Your task to perform on an android device: What's the weather like in Tokyo? Image 0: 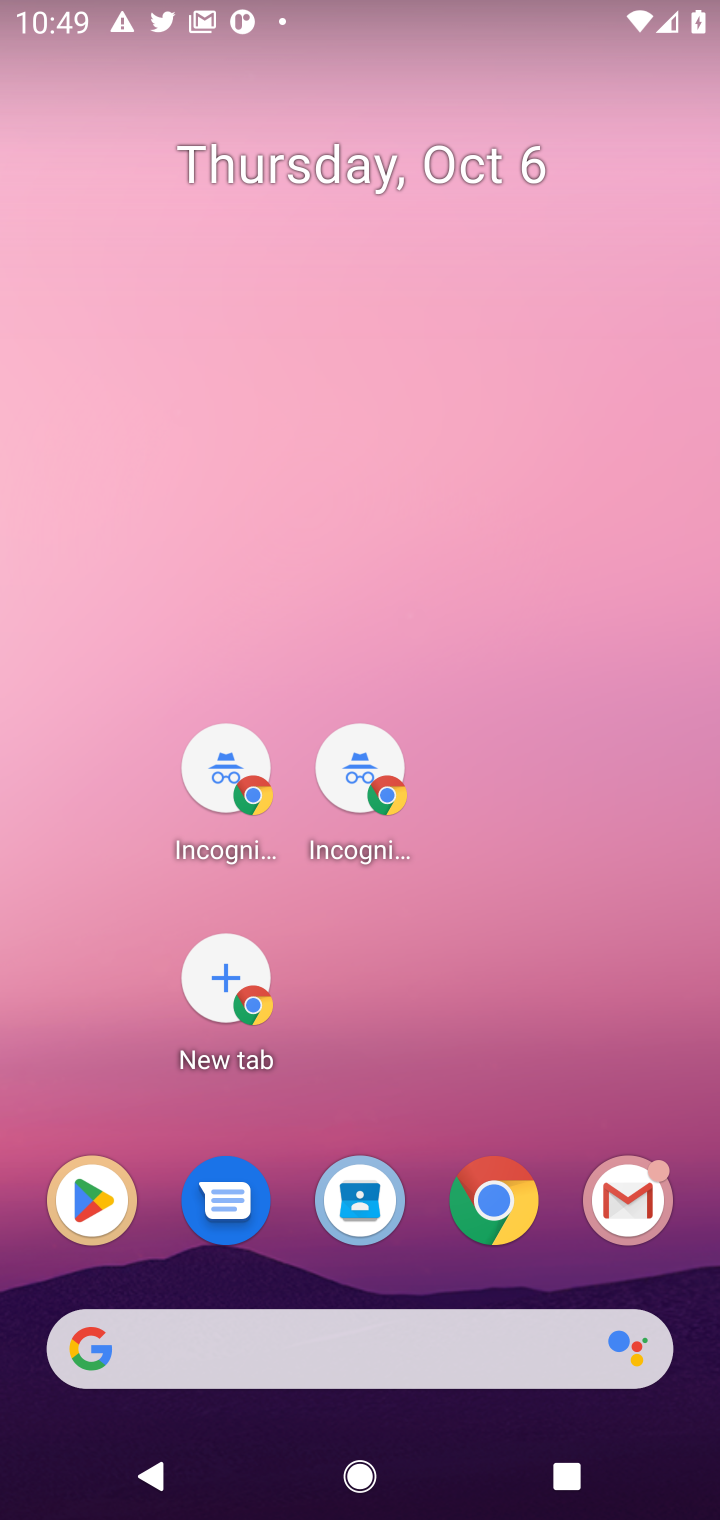
Step 0: press back button
Your task to perform on an android device: What's the weather like in Tokyo? Image 1: 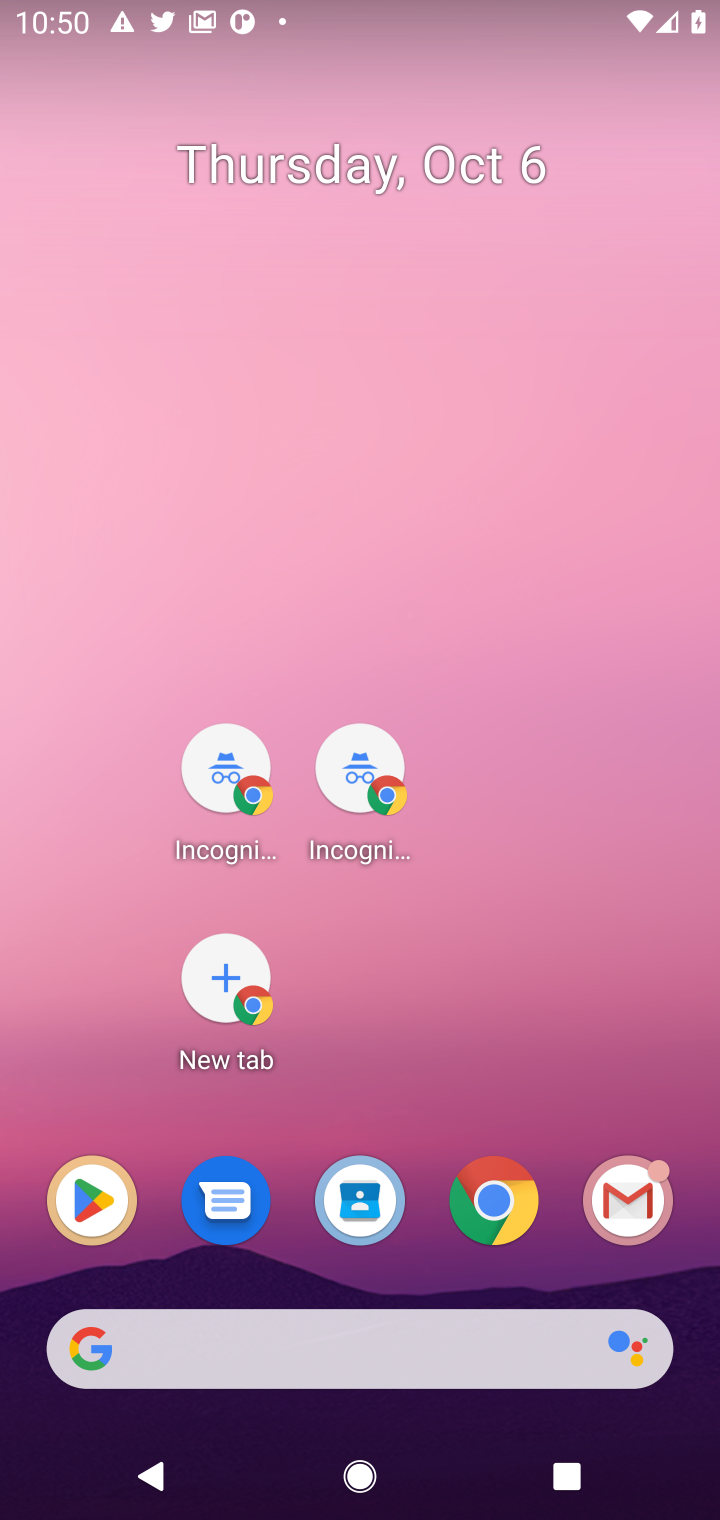
Step 1: click (497, 1175)
Your task to perform on an android device: What's the weather like in Tokyo? Image 2: 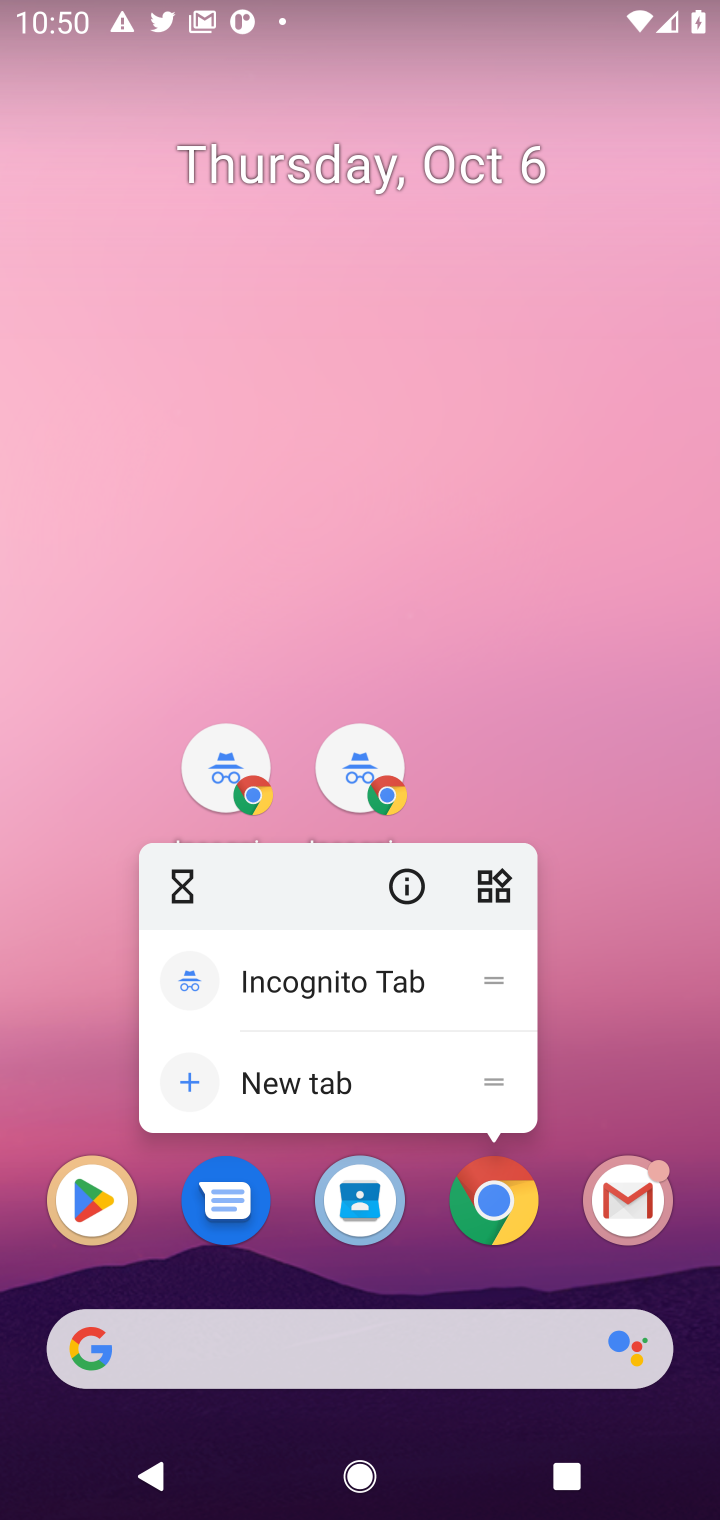
Step 2: press back button
Your task to perform on an android device: What's the weather like in Tokyo? Image 3: 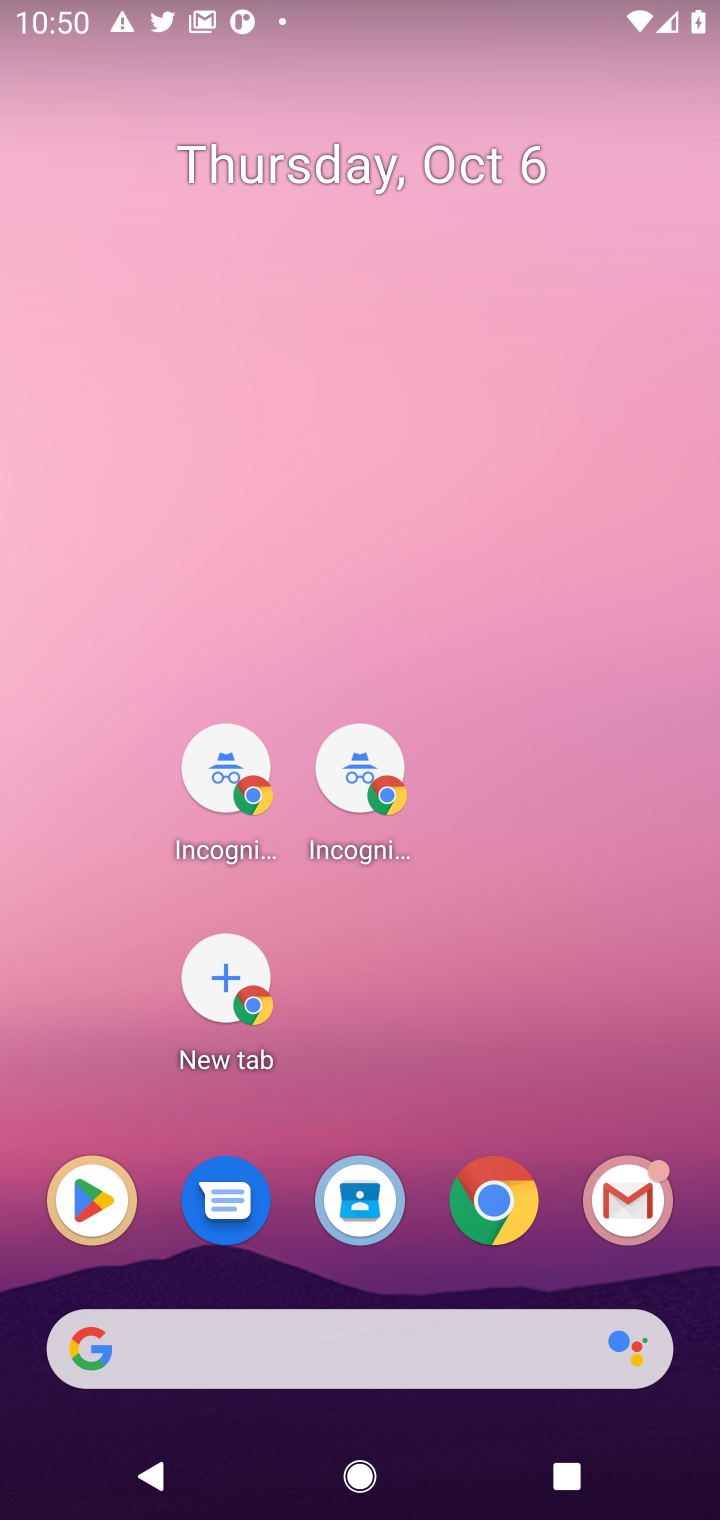
Step 3: press back button
Your task to perform on an android device: What's the weather like in Tokyo? Image 4: 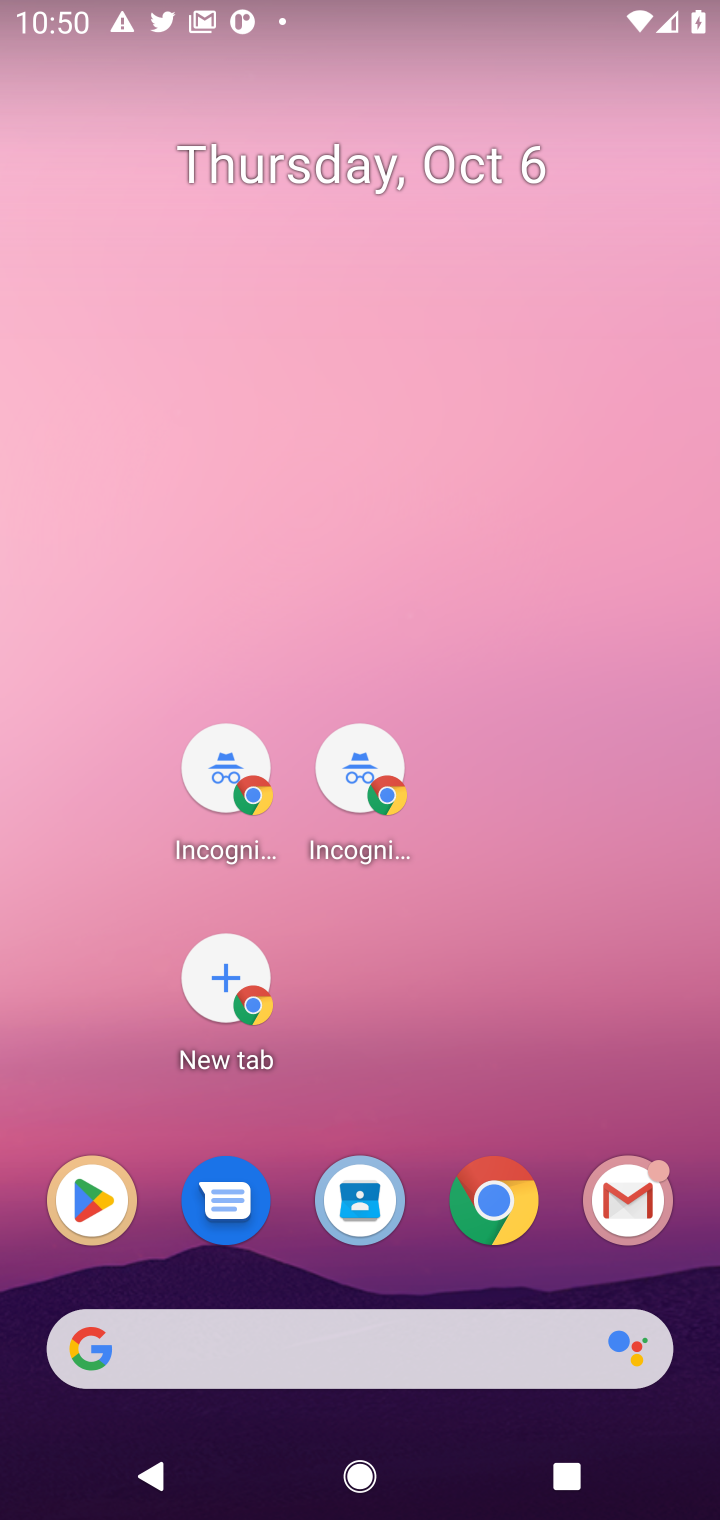
Step 4: press home button
Your task to perform on an android device: What's the weather like in Tokyo? Image 5: 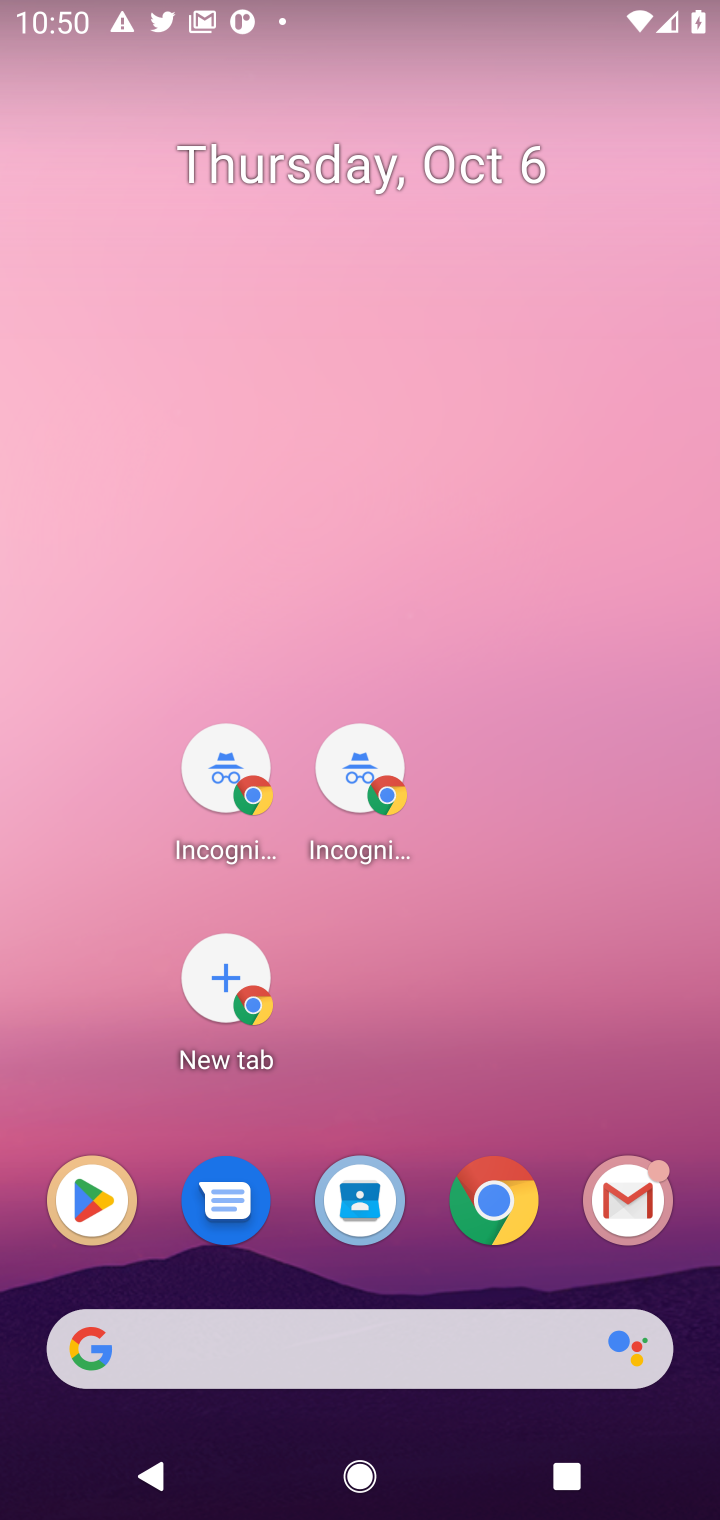
Step 5: press back button
Your task to perform on an android device: What's the weather like in Tokyo? Image 6: 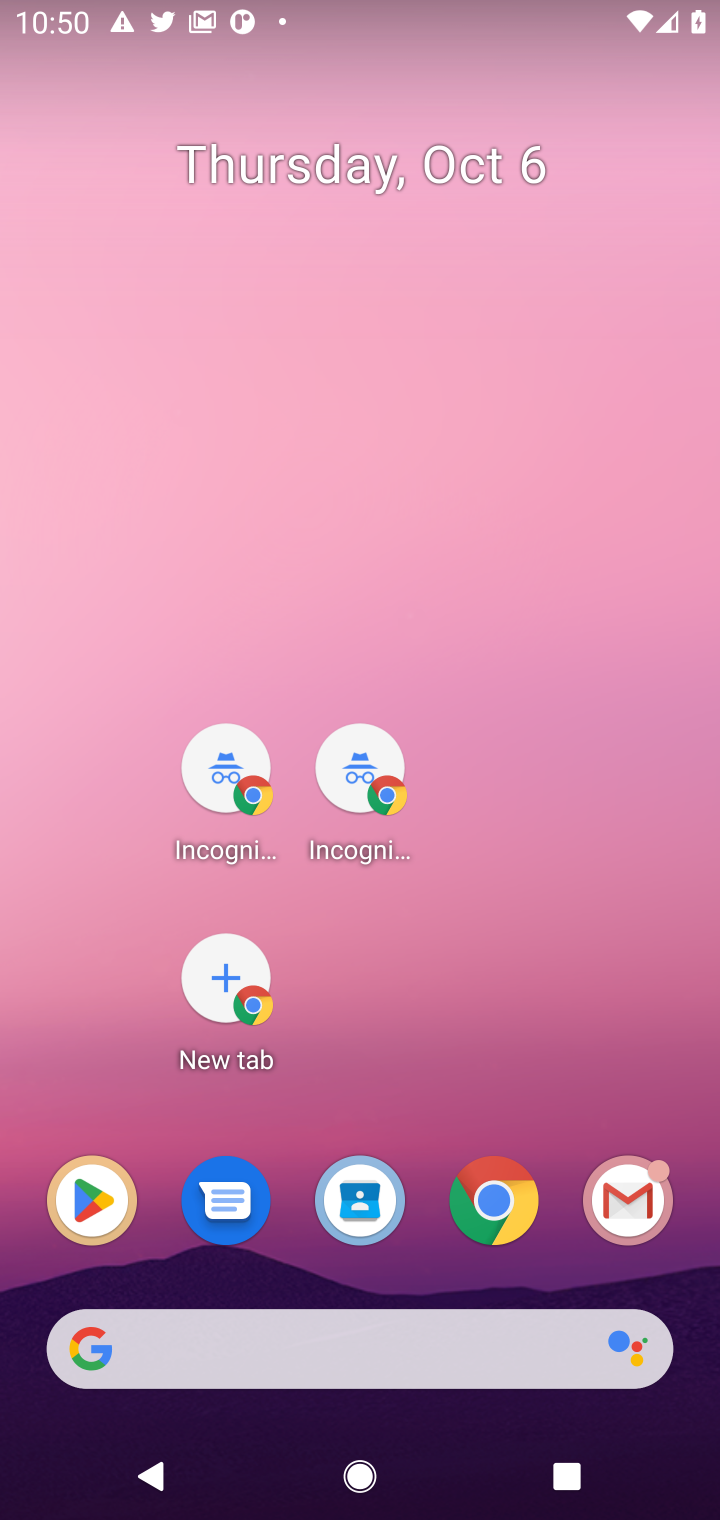
Step 6: press back button
Your task to perform on an android device: What's the weather like in Tokyo? Image 7: 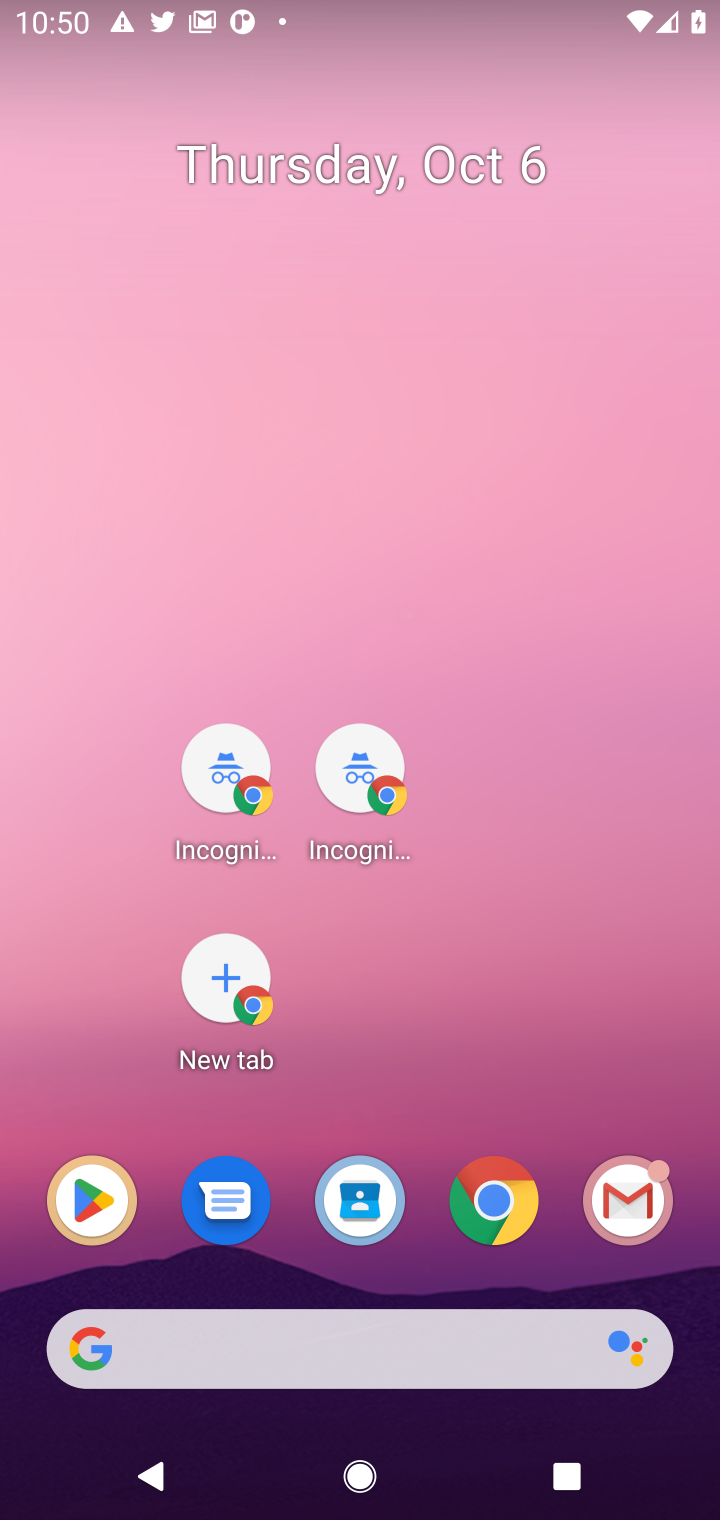
Step 7: press back button
Your task to perform on an android device: What's the weather like in Tokyo? Image 8: 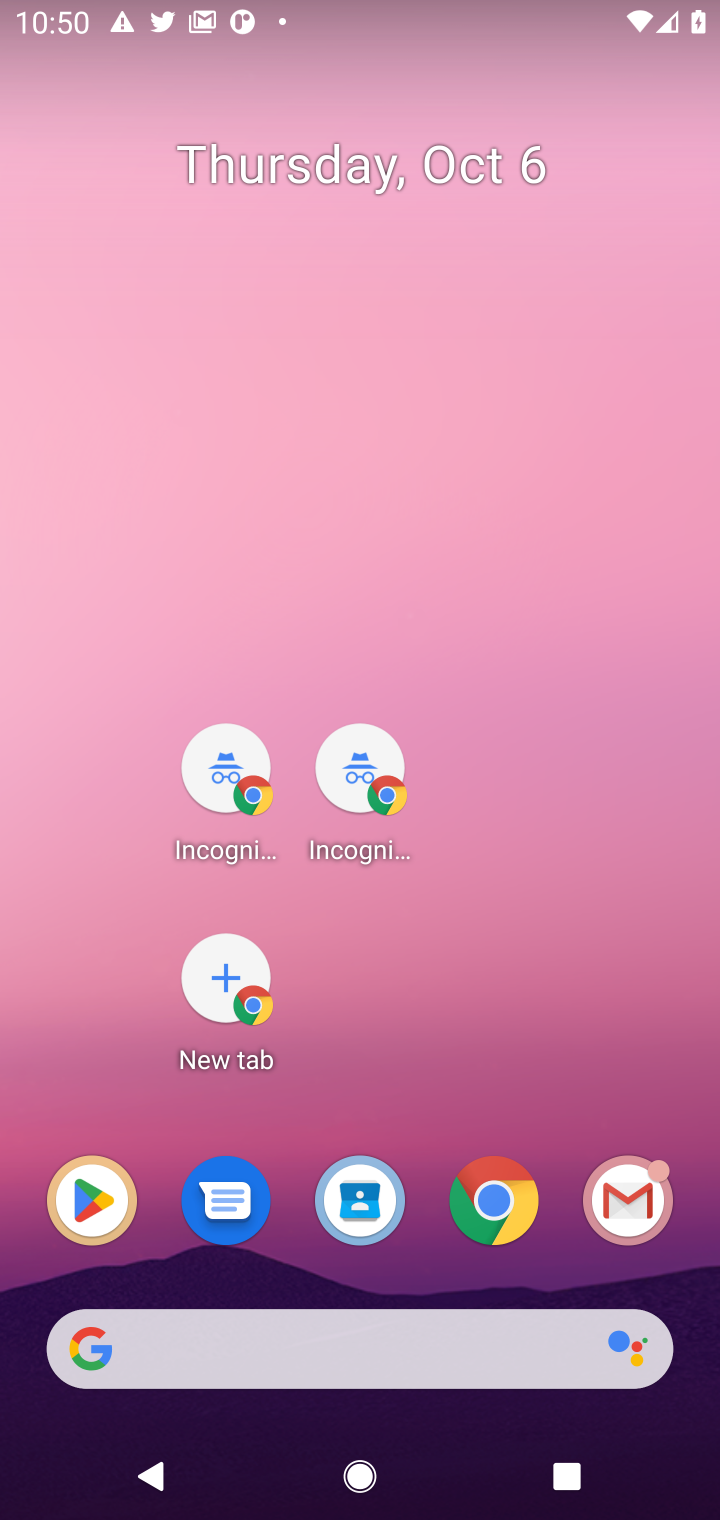
Step 8: click (515, 1190)
Your task to perform on an android device: What's the weather like in Tokyo? Image 9: 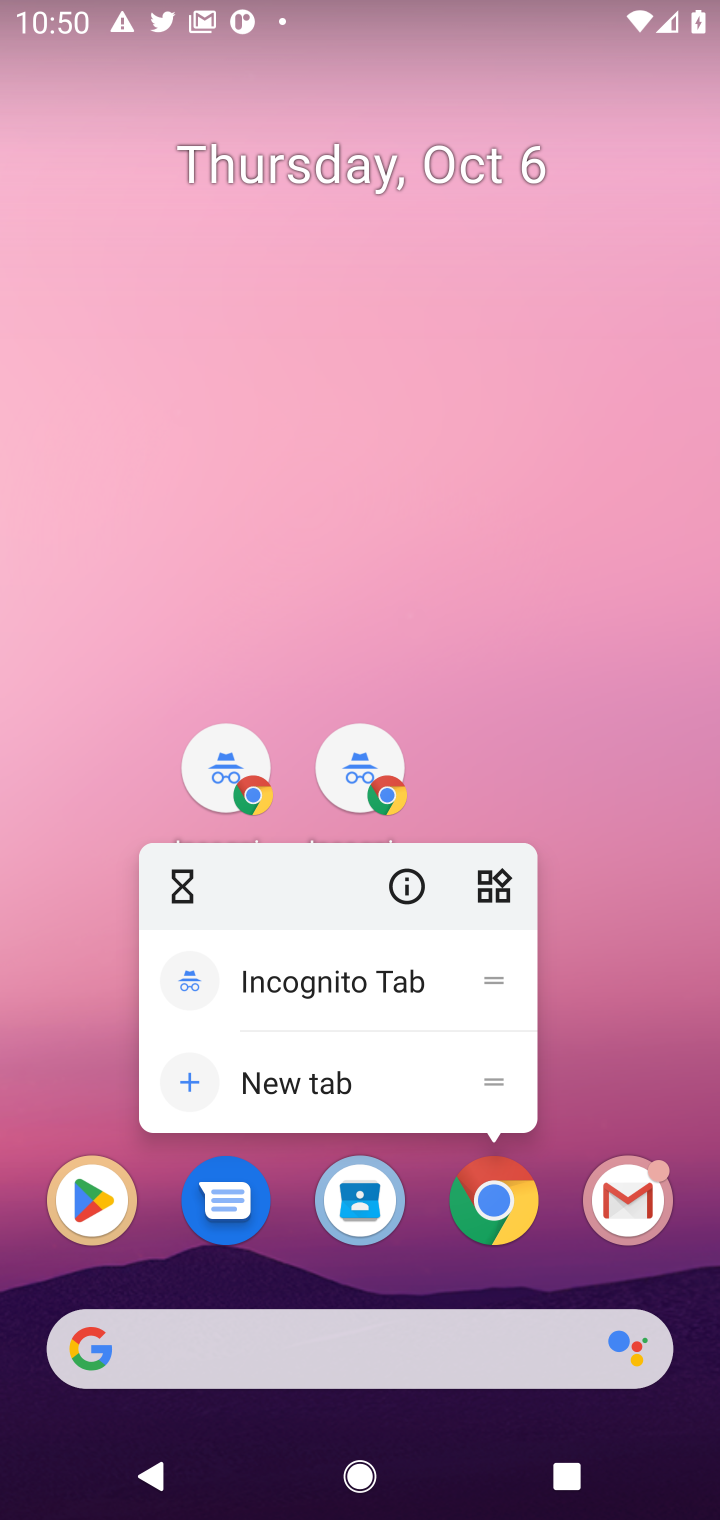
Step 9: click (510, 1222)
Your task to perform on an android device: What's the weather like in Tokyo? Image 10: 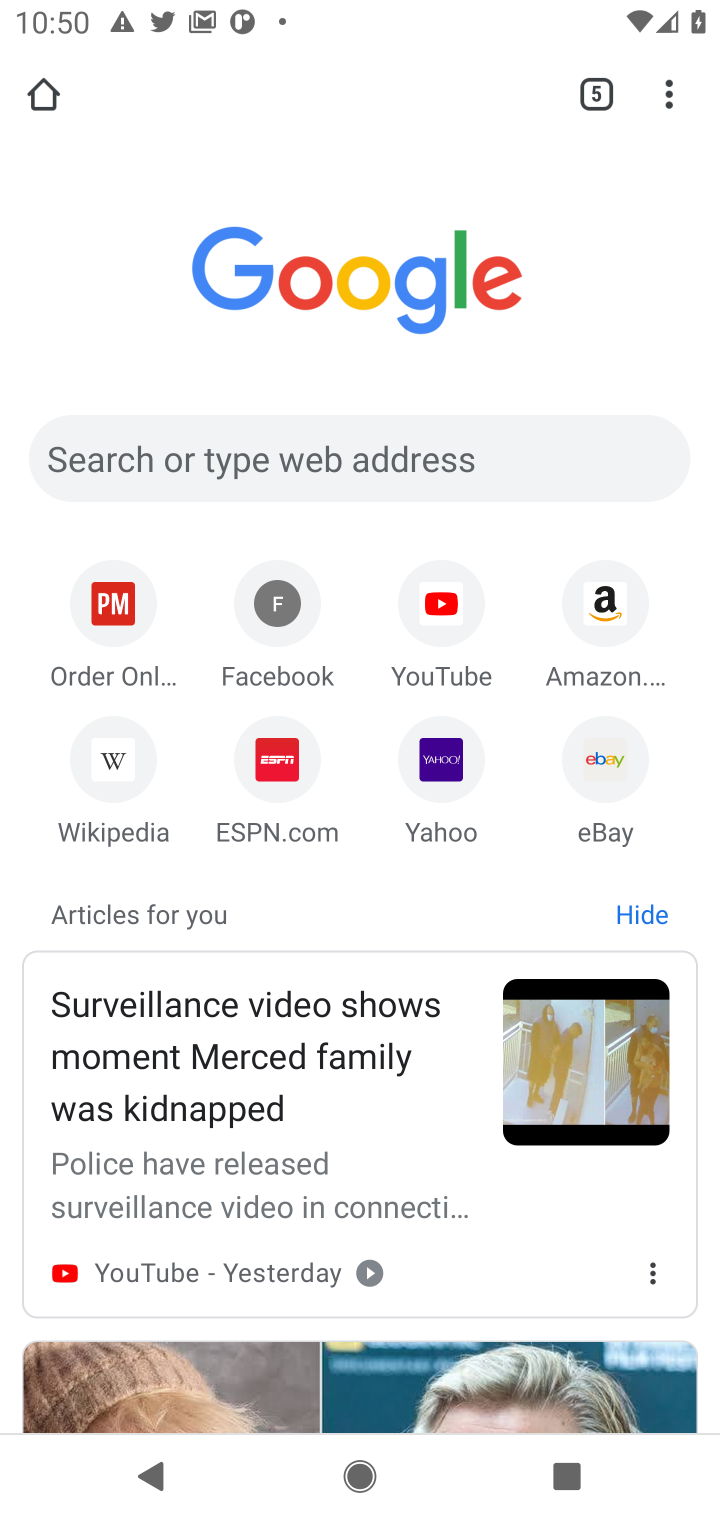
Step 10: click (197, 446)
Your task to perform on an android device: What's the weather like in Tokyo? Image 11: 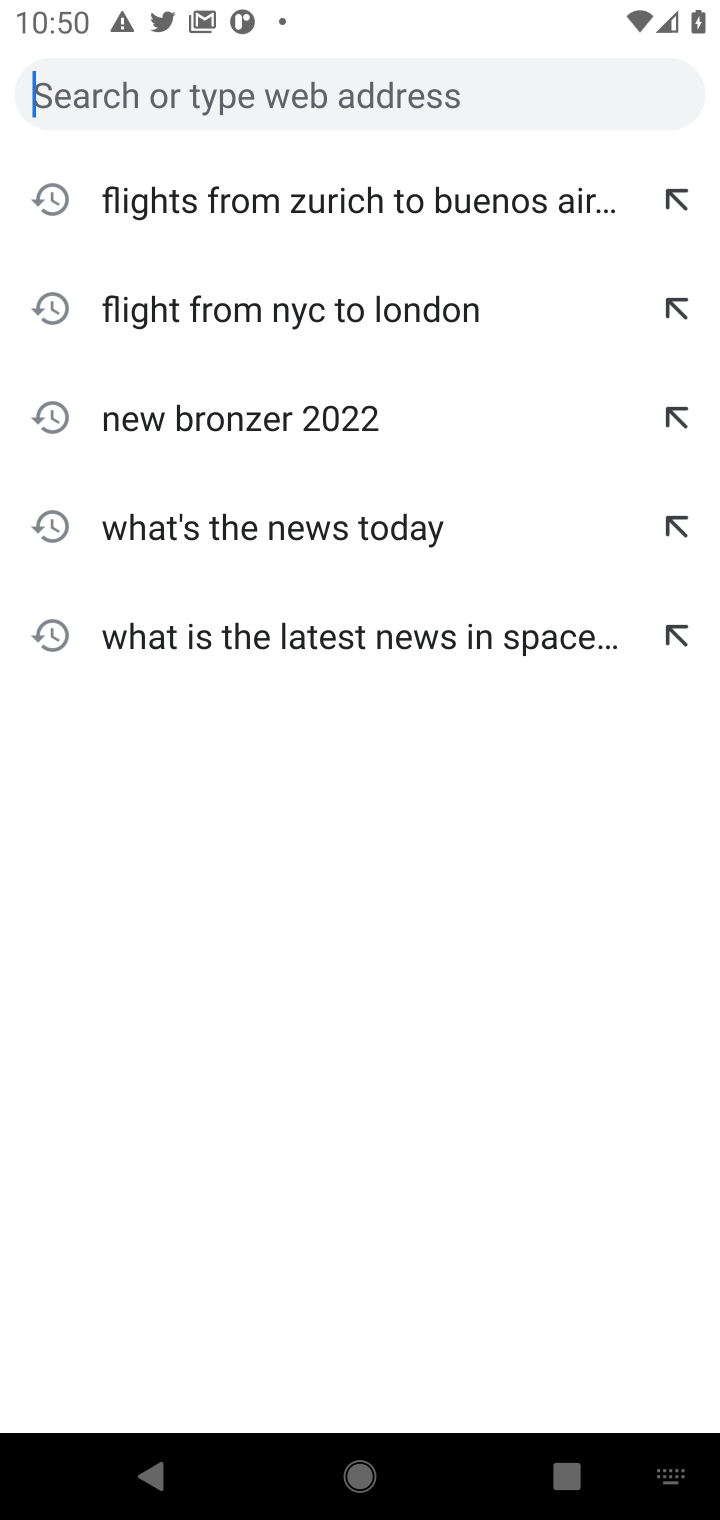
Step 11: type "whats the weather like in tokyo"
Your task to perform on an android device: What's the weather like in Tokyo? Image 12: 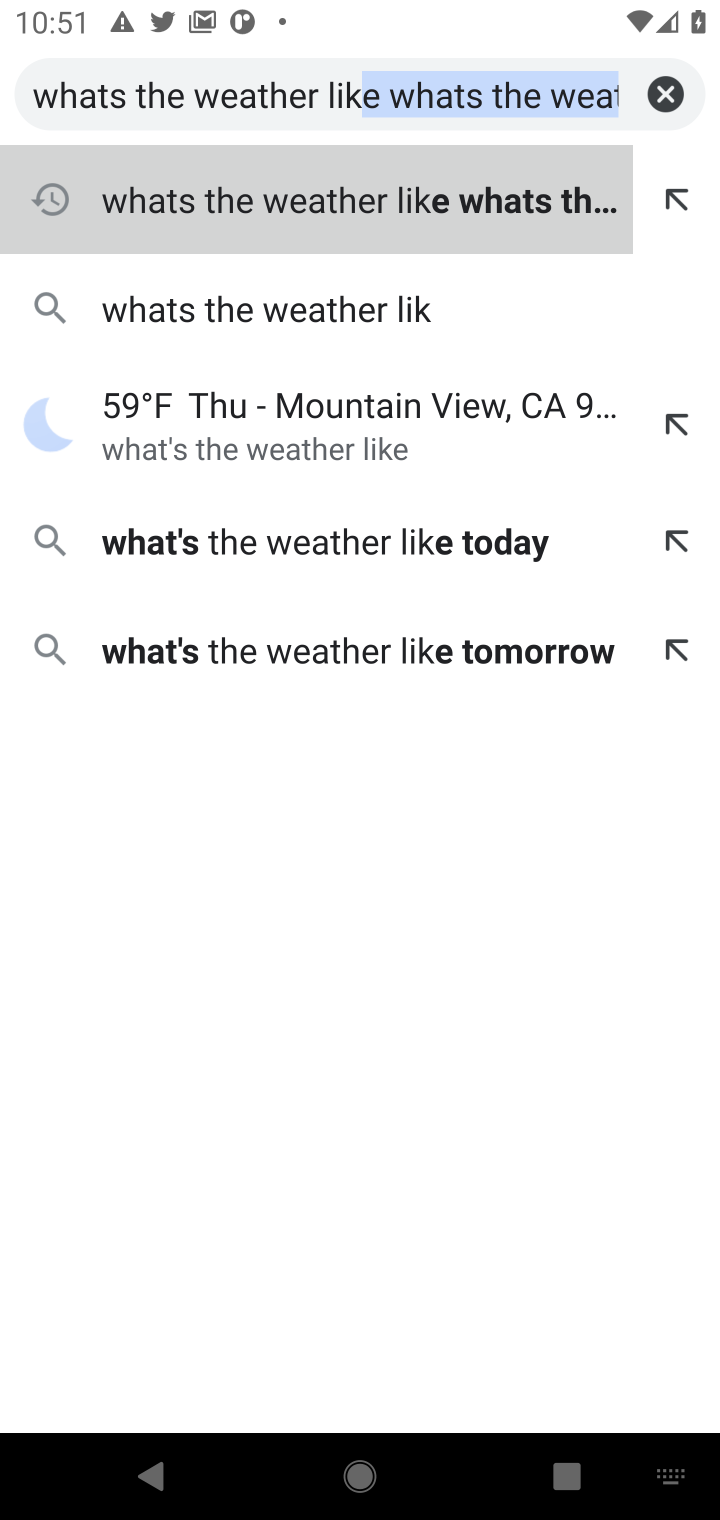
Step 12: click (661, 84)
Your task to perform on an android device: What's the weather like in Tokyo? Image 13: 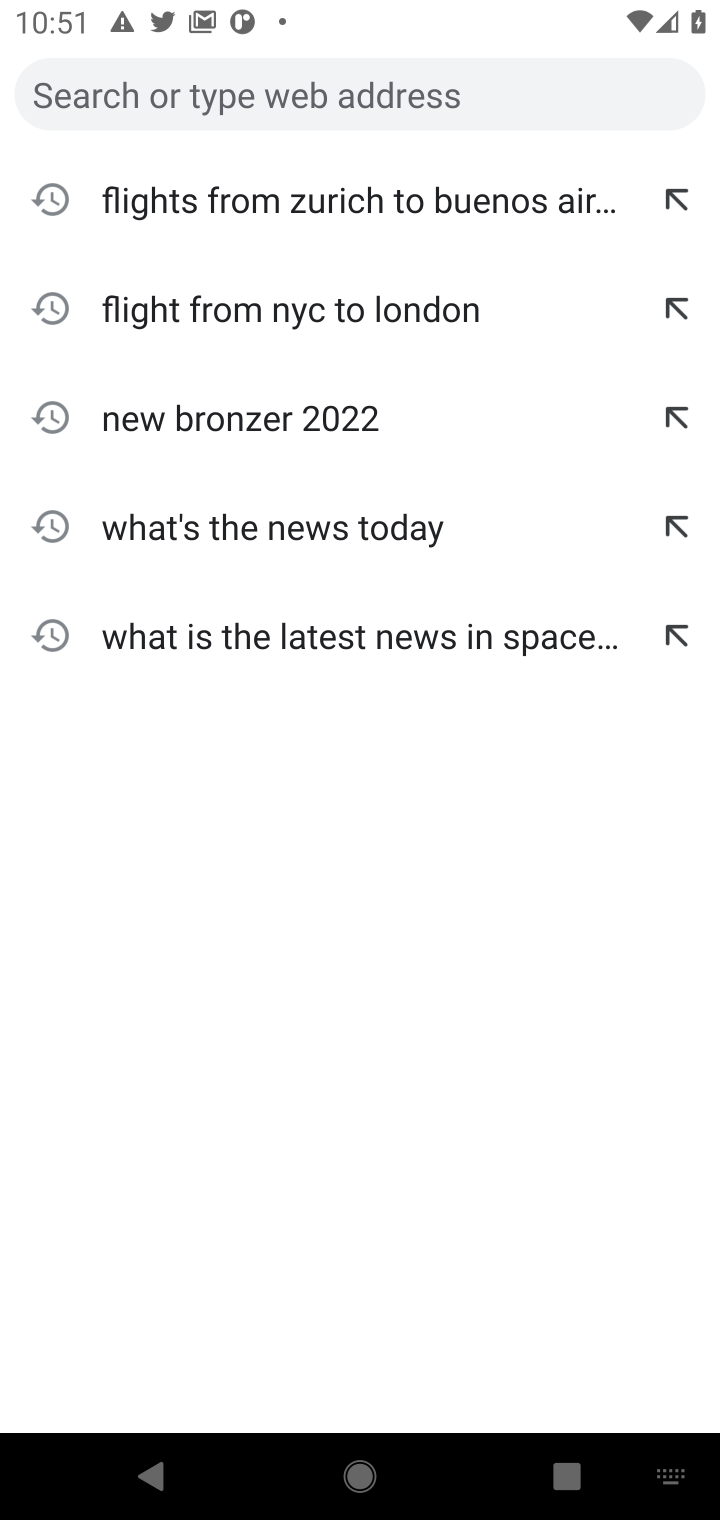
Step 13: type "whats the weather like in tokyo"
Your task to perform on an android device: What's the weather like in Tokyo? Image 14: 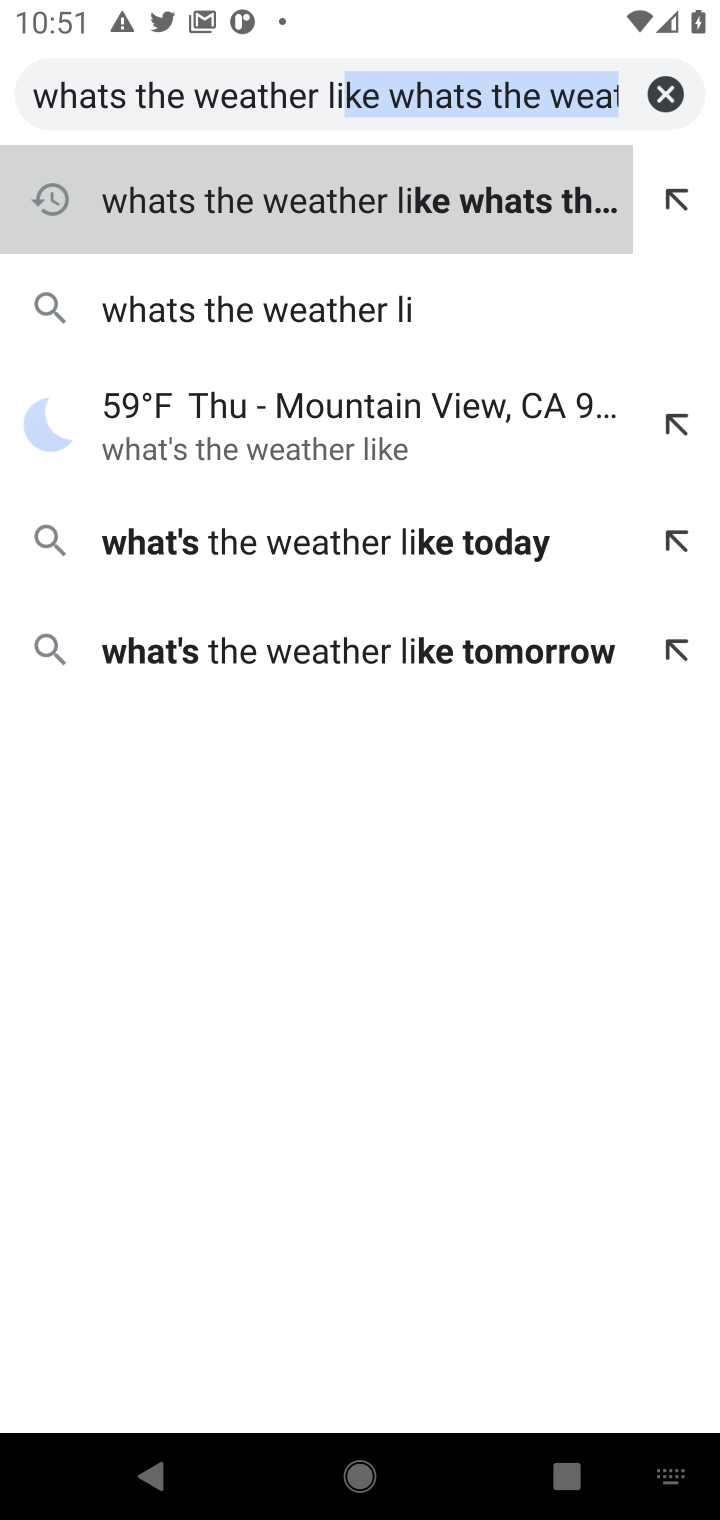
Step 14: click (661, 88)
Your task to perform on an android device: What's the weather like in Tokyo? Image 15: 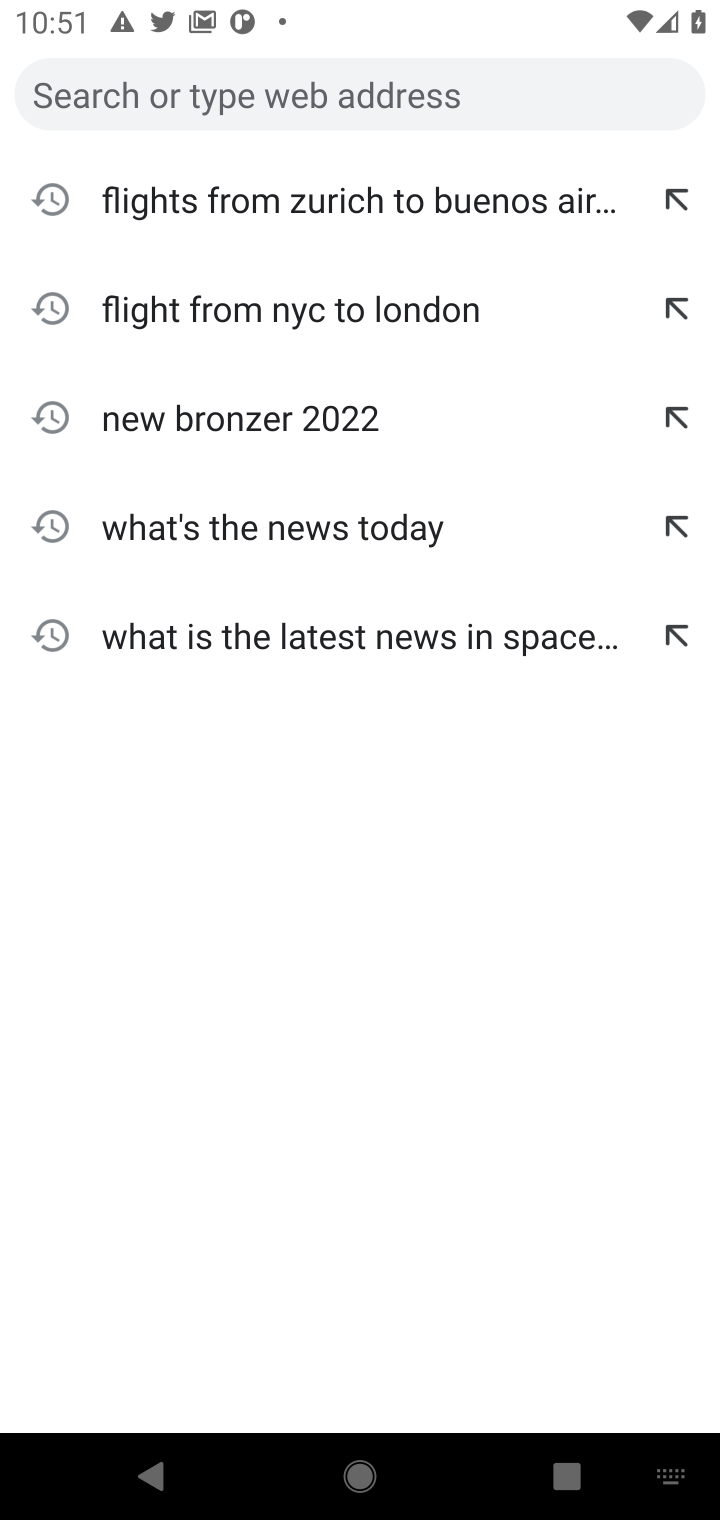
Step 15: type "whats the weather like in tokyo"
Your task to perform on an android device: What's the weather like in Tokyo? Image 16: 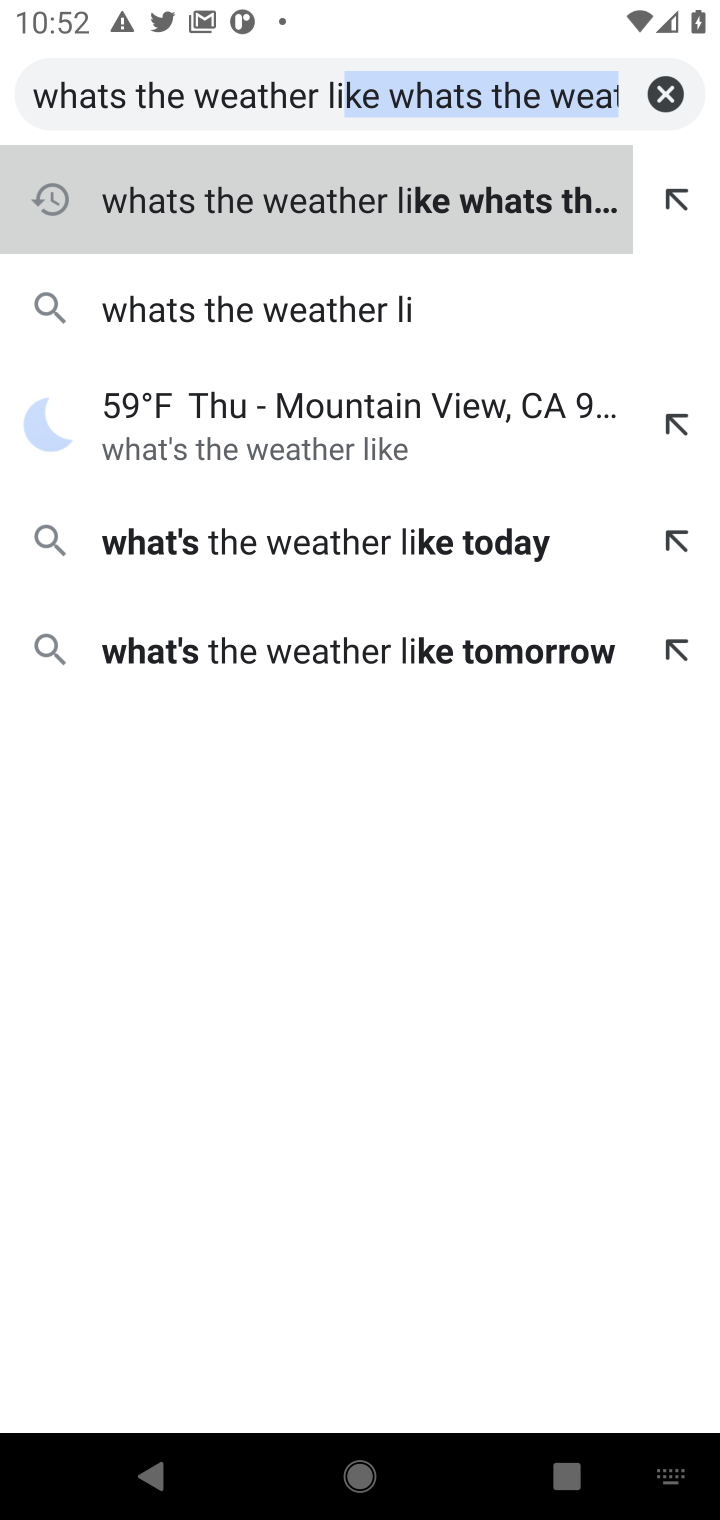
Step 16: click (342, 185)
Your task to perform on an android device: What's the weather like in Tokyo? Image 17: 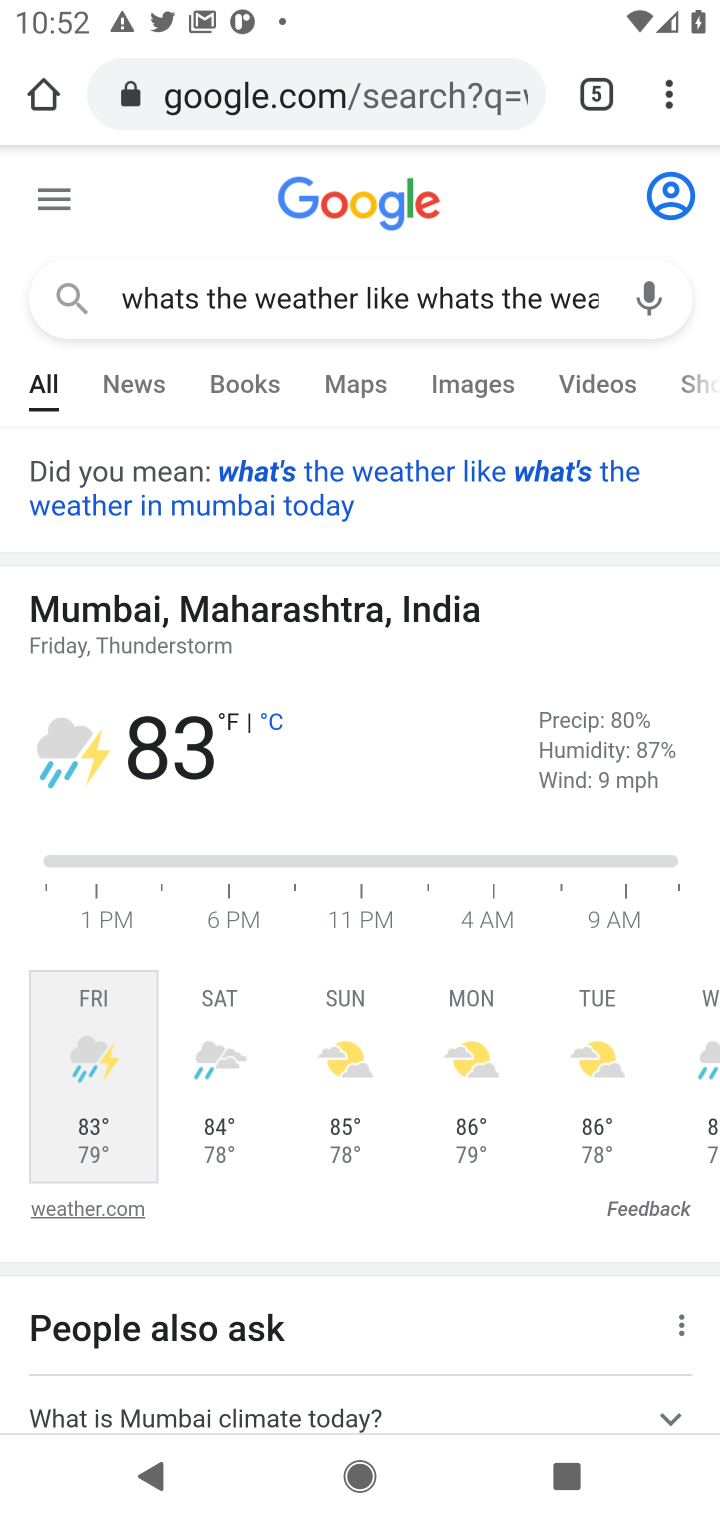
Step 17: drag from (470, 1170) to (517, 653)
Your task to perform on an android device: What's the weather like in Tokyo? Image 18: 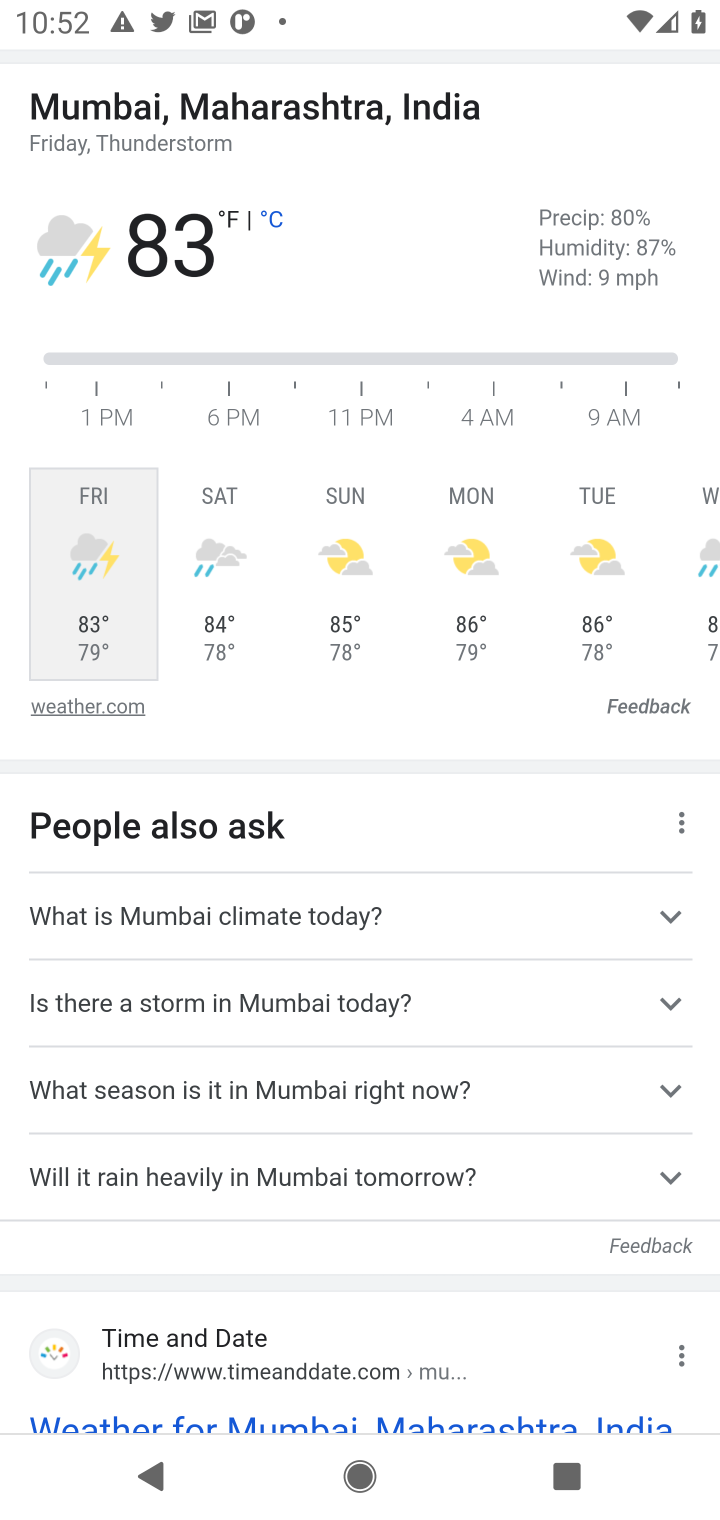
Step 18: drag from (271, 487) to (290, 1229)
Your task to perform on an android device: What's the weather like in Tokyo? Image 19: 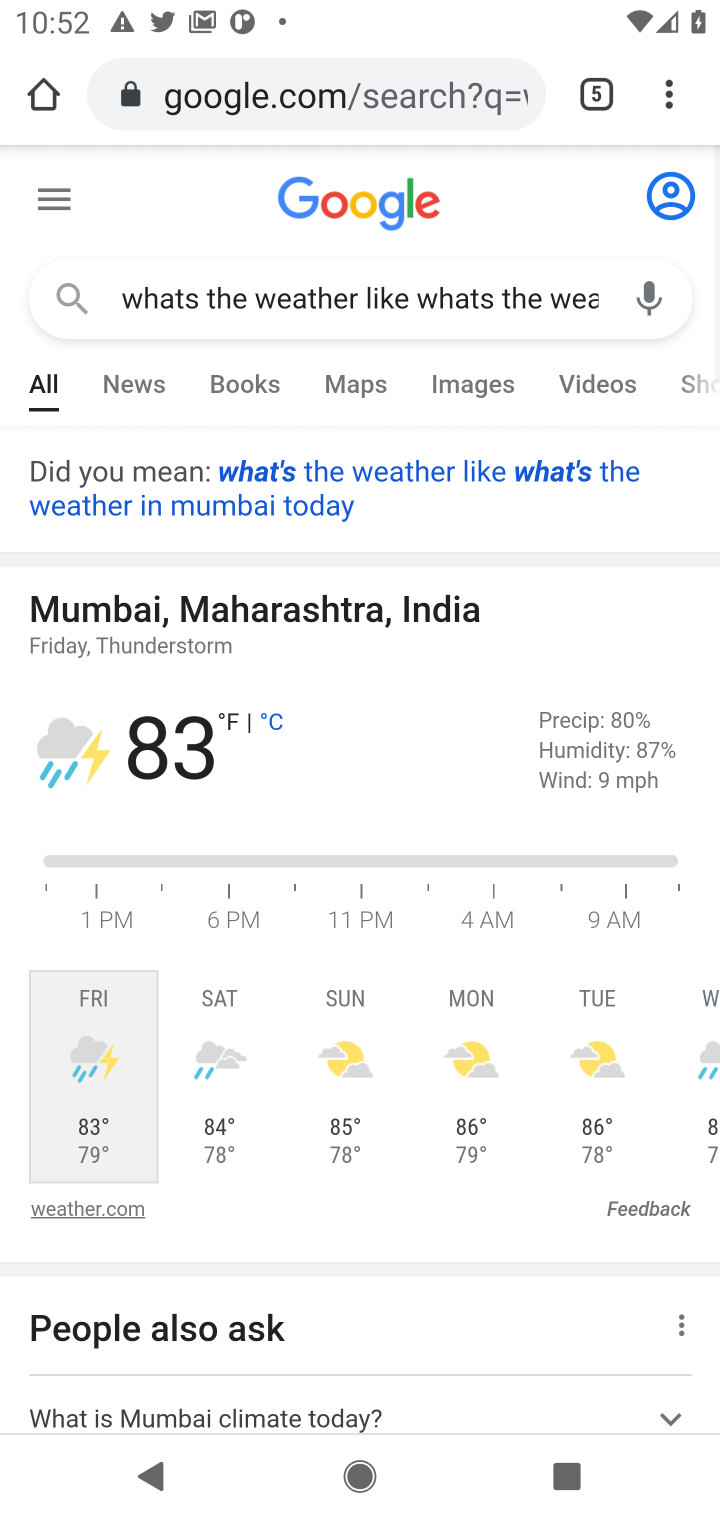
Step 19: drag from (277, 965) to (260, 1256)
Your task to perform on an android device: What's the weather like in Tokyo? Image 20: 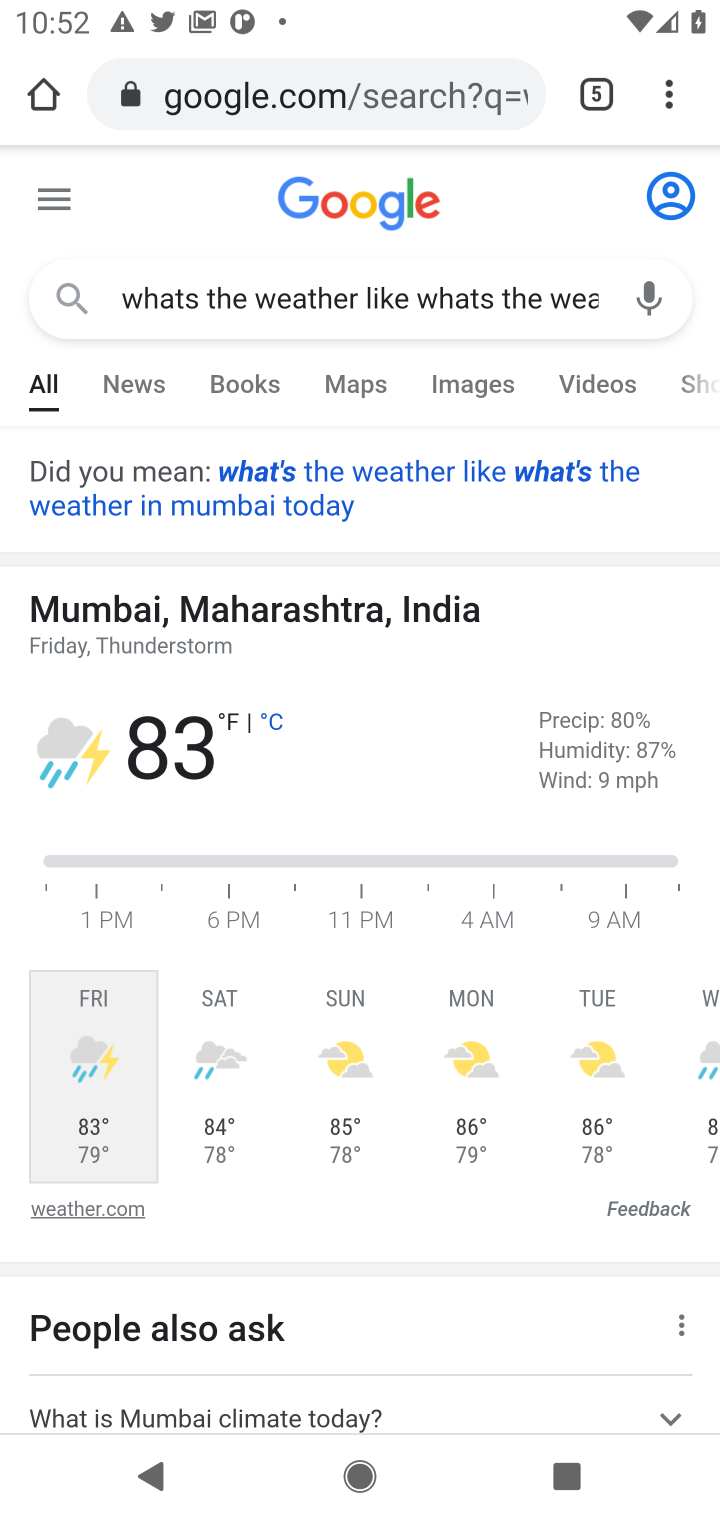
Step 20: click (363, 387)
Your task to perform on an android device: What's the weather like in Tokyo? Image 21: 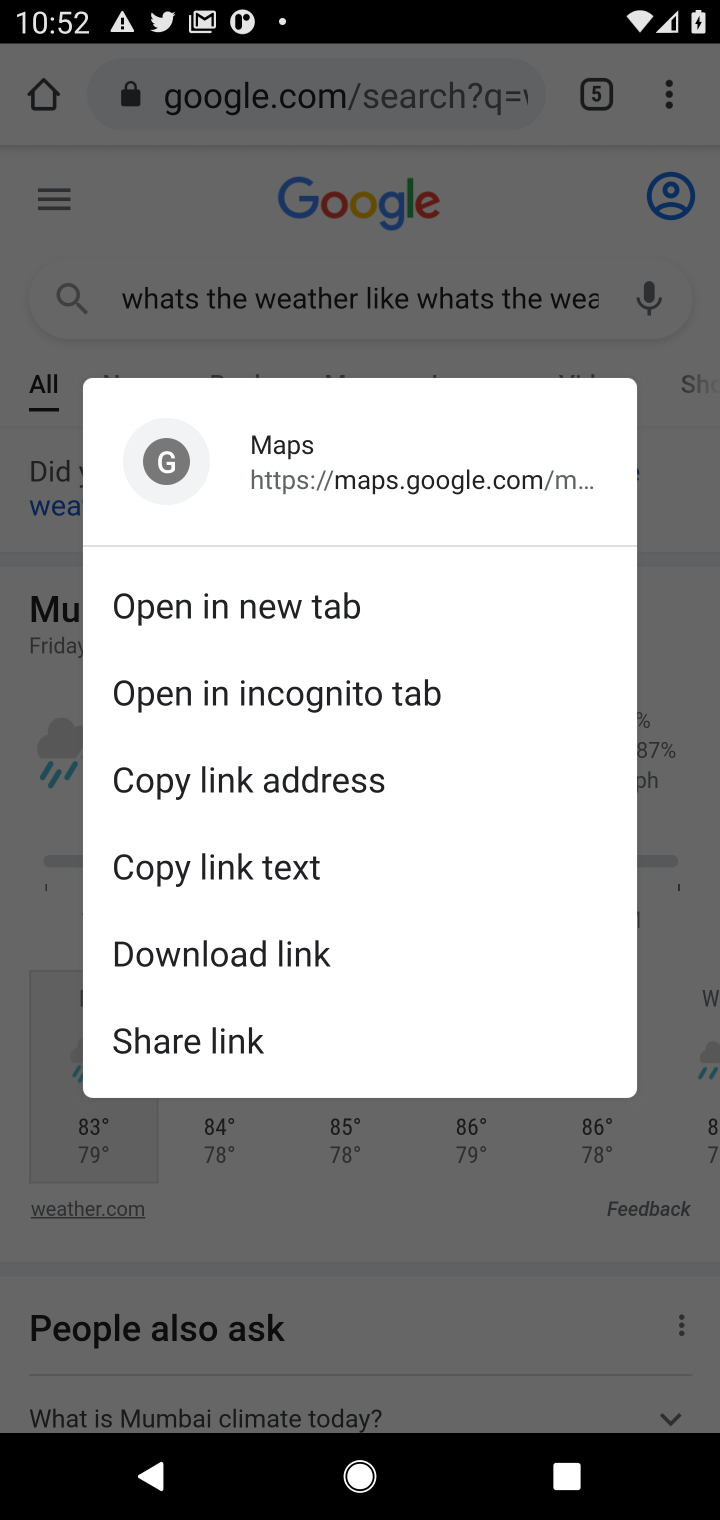
Step 21: click (299, 599)
Your task to perform on an android device: What's the weather like in Tokyo? Image 22: 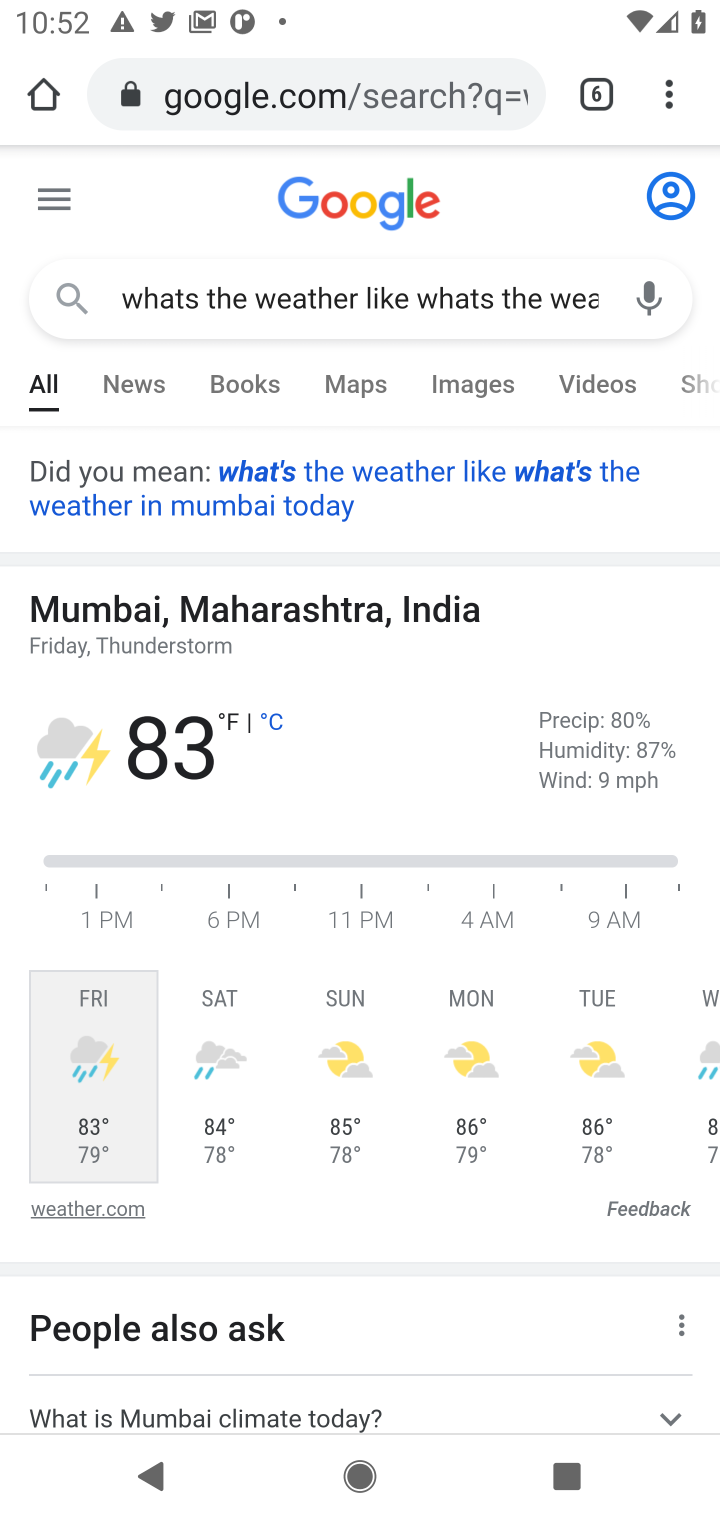
Step 22: drag from (439, 1398) to (508, 824)
Your task to perform on an android device: What's the weather like in Tokyo? Image 23: 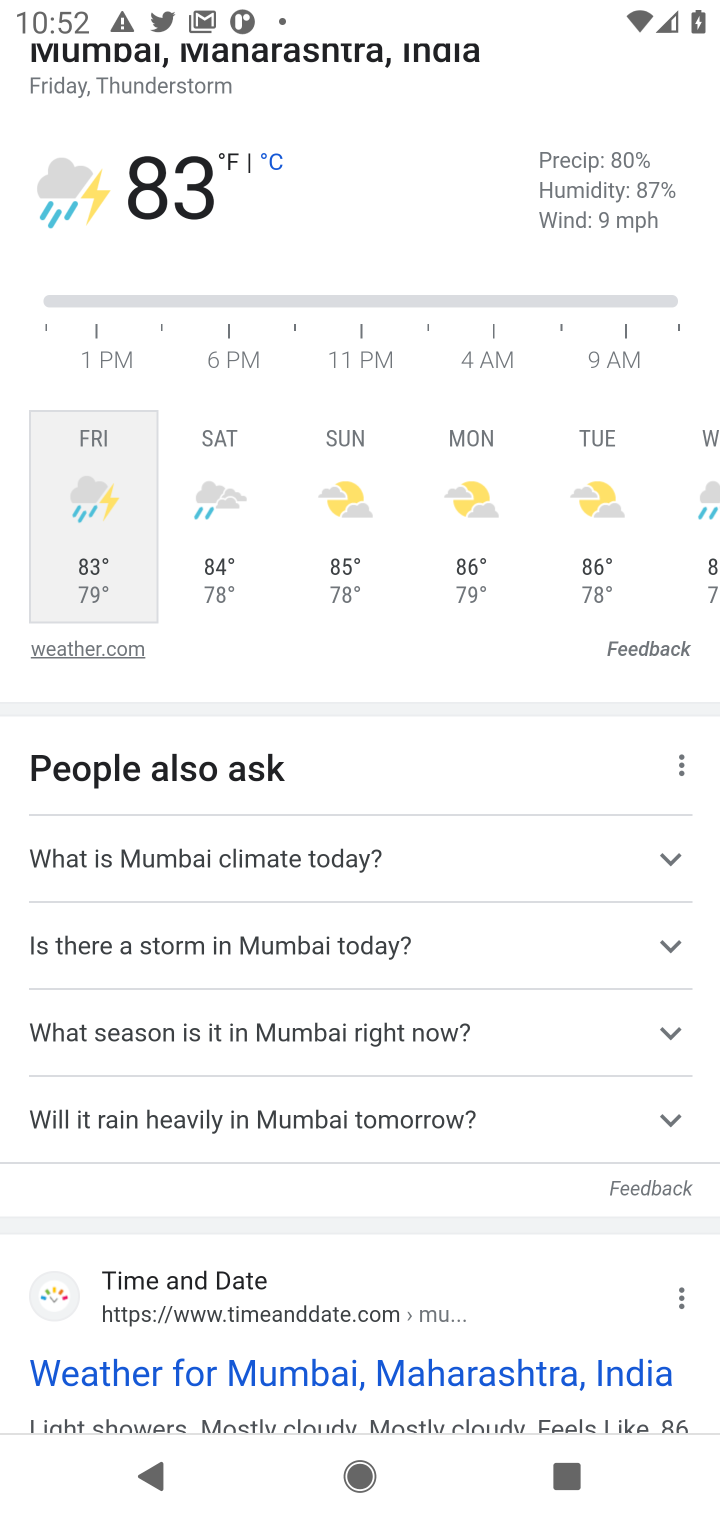
Step 23: click (653, 839)
Your task to perform on an android device: What's the weather like in Tokyo? Image 24: 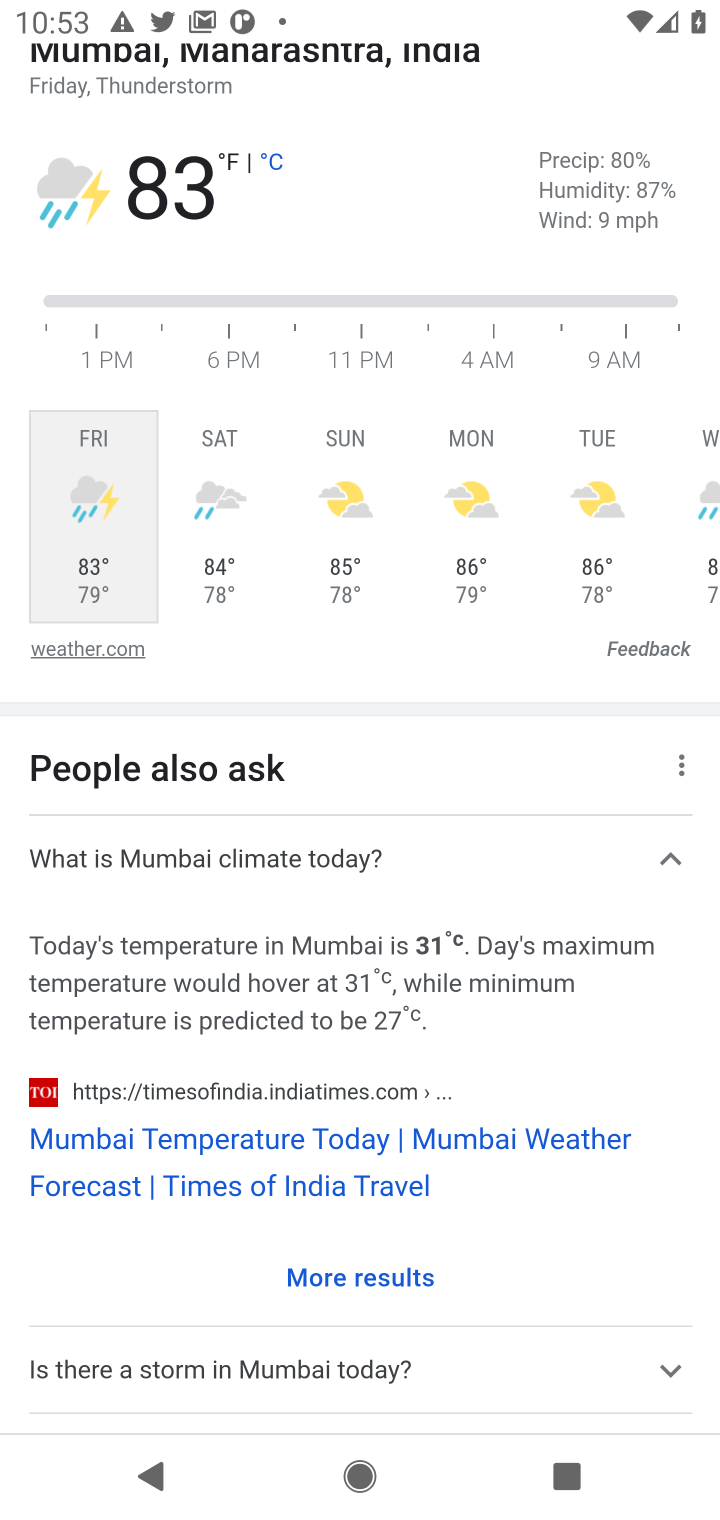
Step 24: drag from (211, 575) to (299, 260)
Your task to perform on an android device: What's the weather like in Tokyo? Image 25: 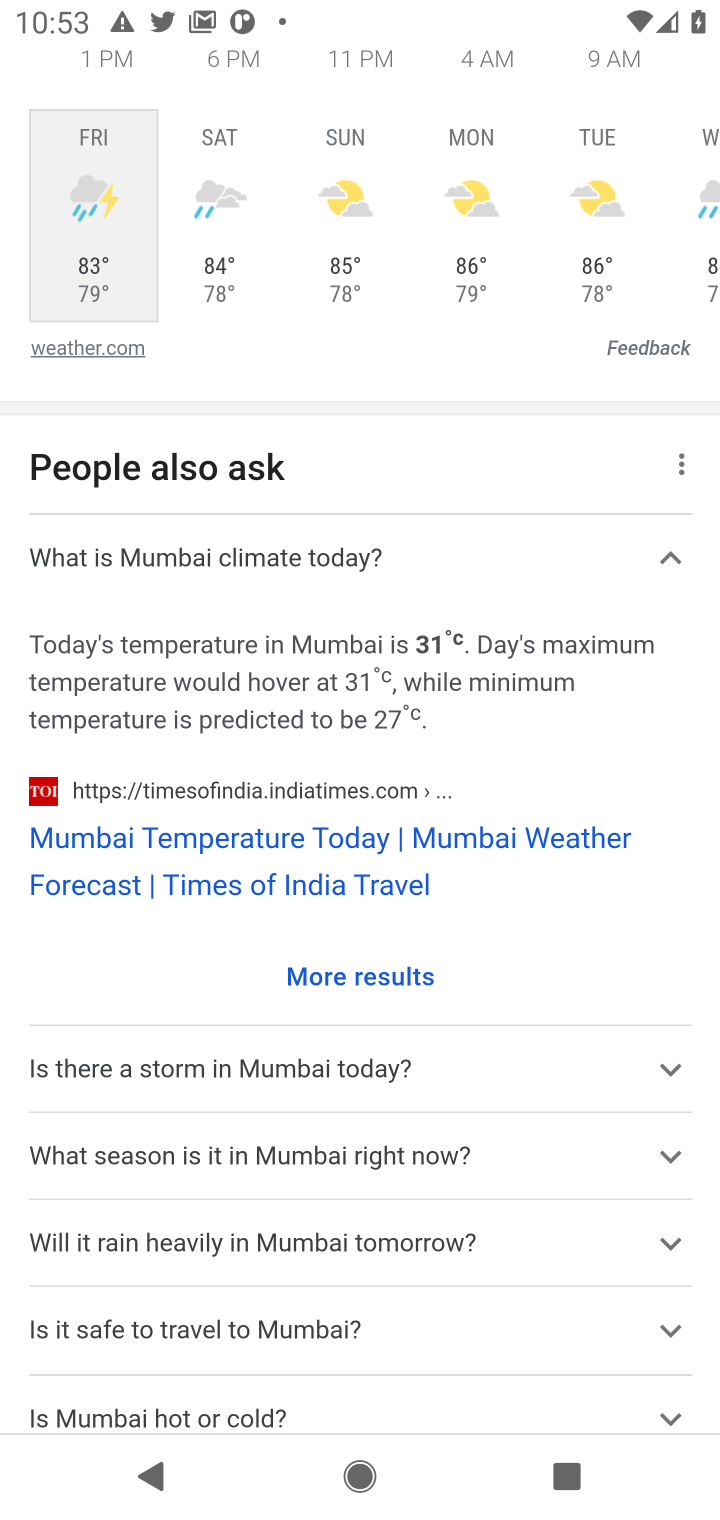
Step 25: drag from (387, 971) to (405, 455)
Your task to perform on an android device: What's the weather like in Tokyo? Image 26: 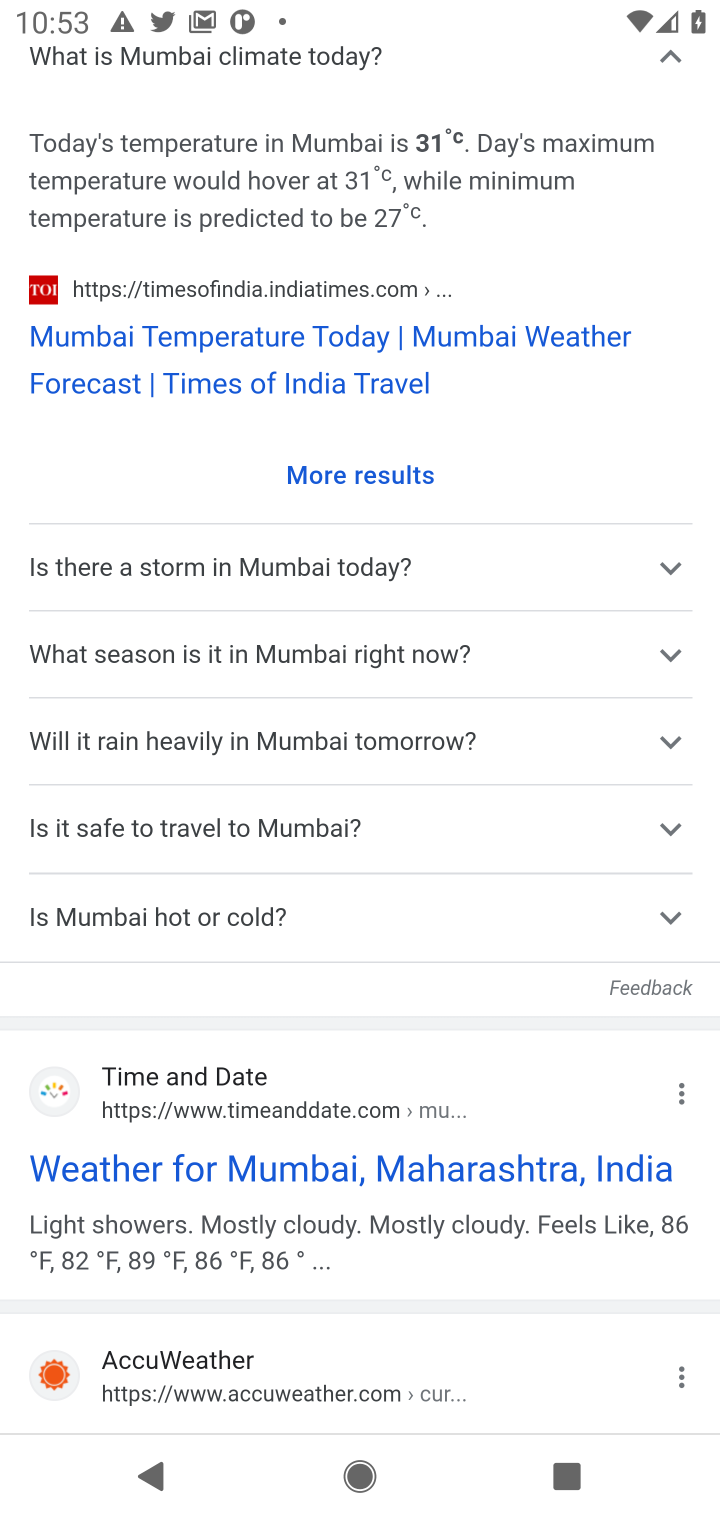
Step 26: drag from (418, 912) to (450, 424)
Your task to perform on an android device: What's the weather like in Tokyo? Image 27: 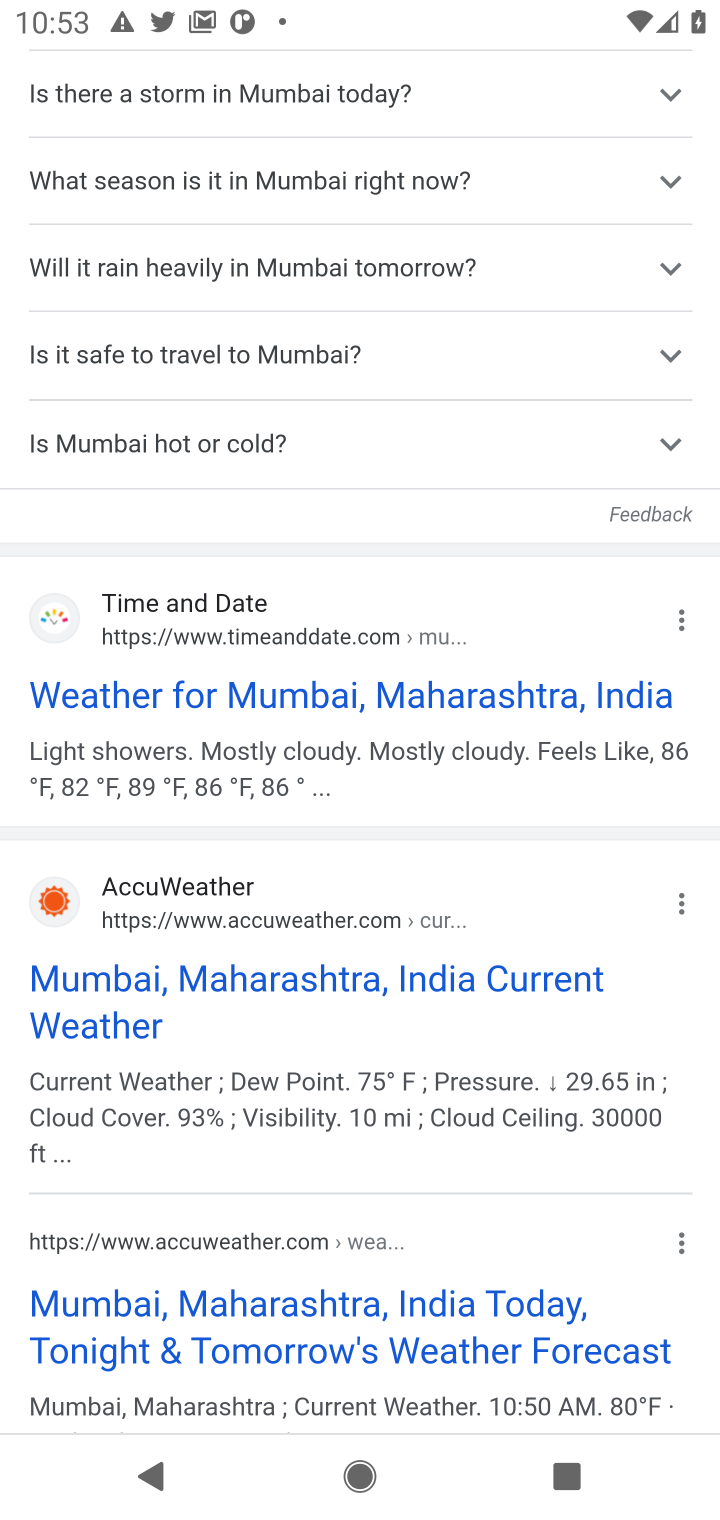
Step 27: drag from (431, 684) to (399, 131)
Your task to perform on an android device: What's the weather like in Tokyo? Image 28: 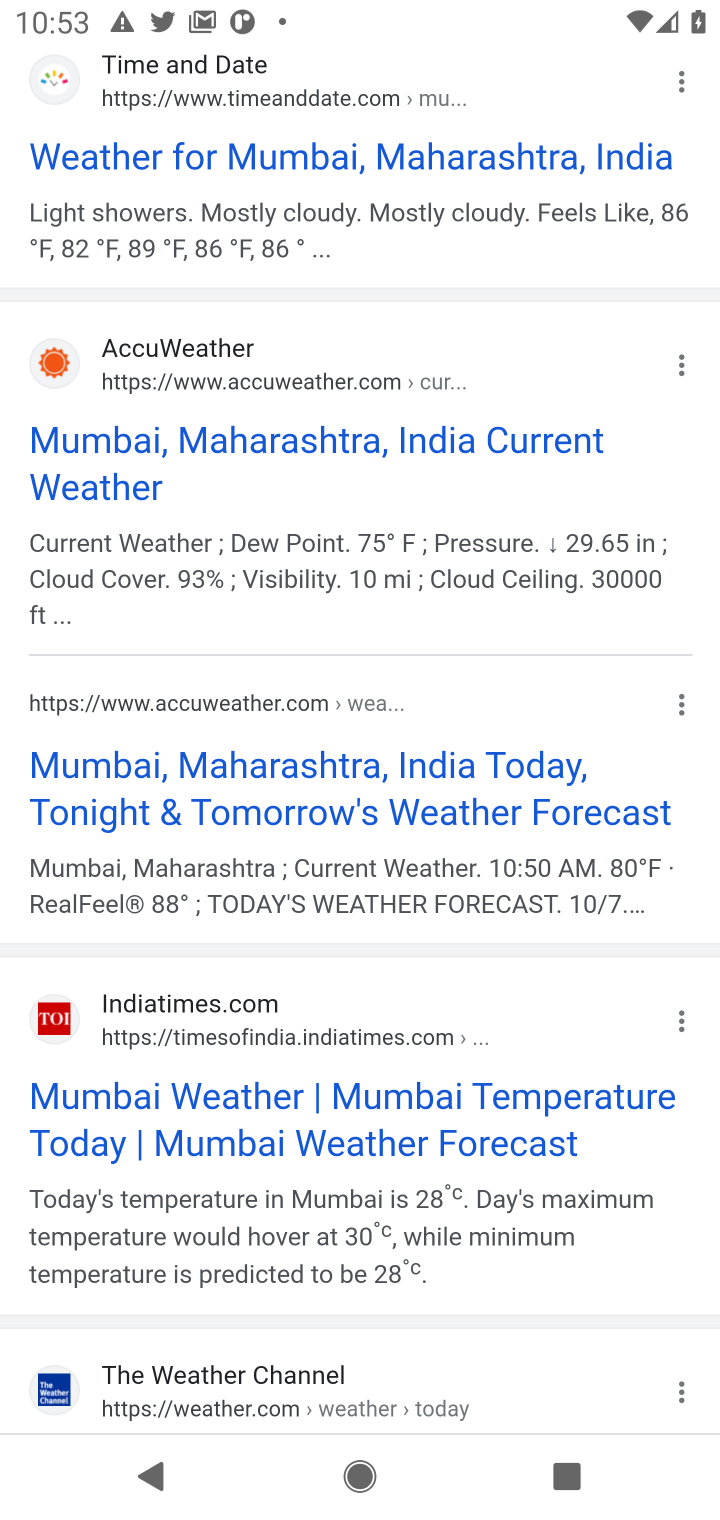
Step 28: drag from (317, 244) to (351, 1152)
Your task to perform on an android device: What's the weather like in Tokyo? Image 29: 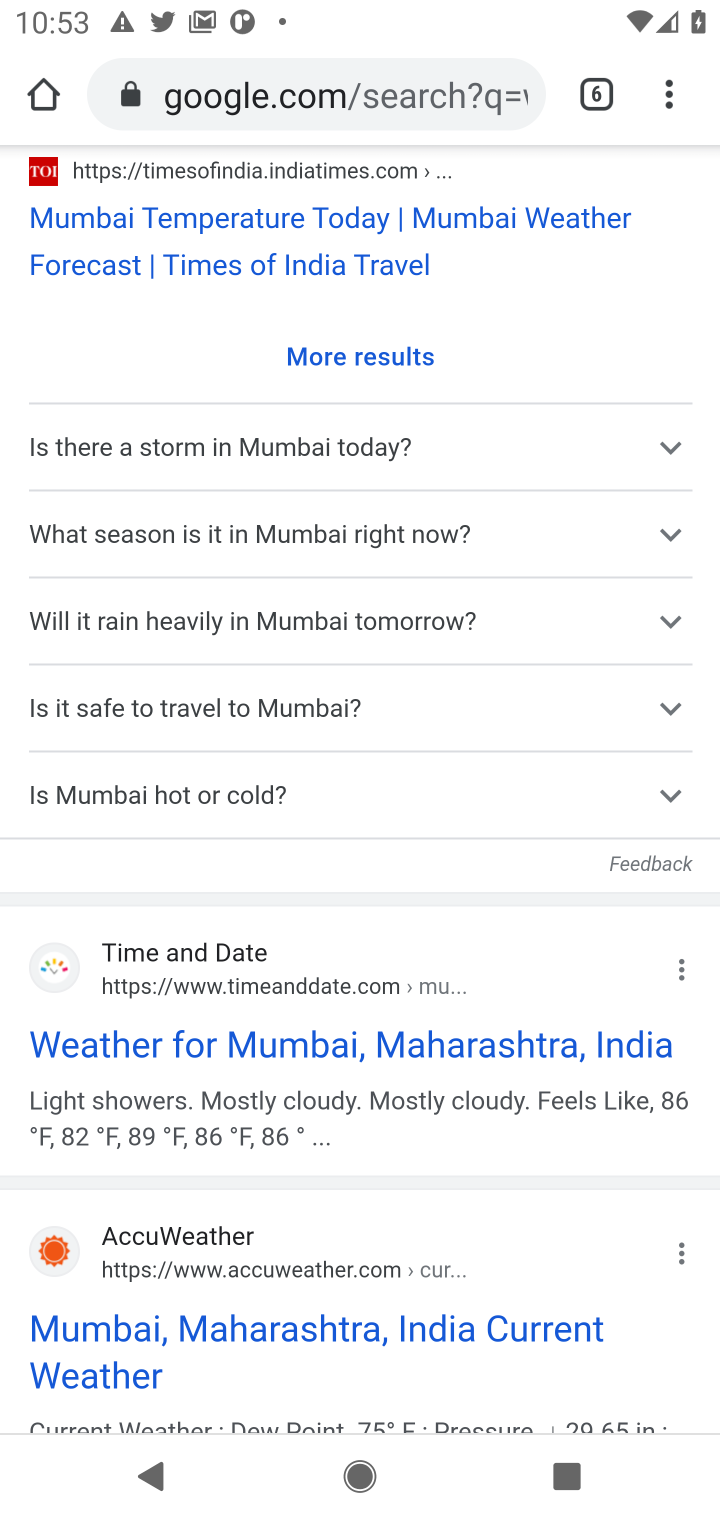
Step 29: click (331, 89)
Your task to perform on an android device: What's the weather like in Tokyo? Image 30: 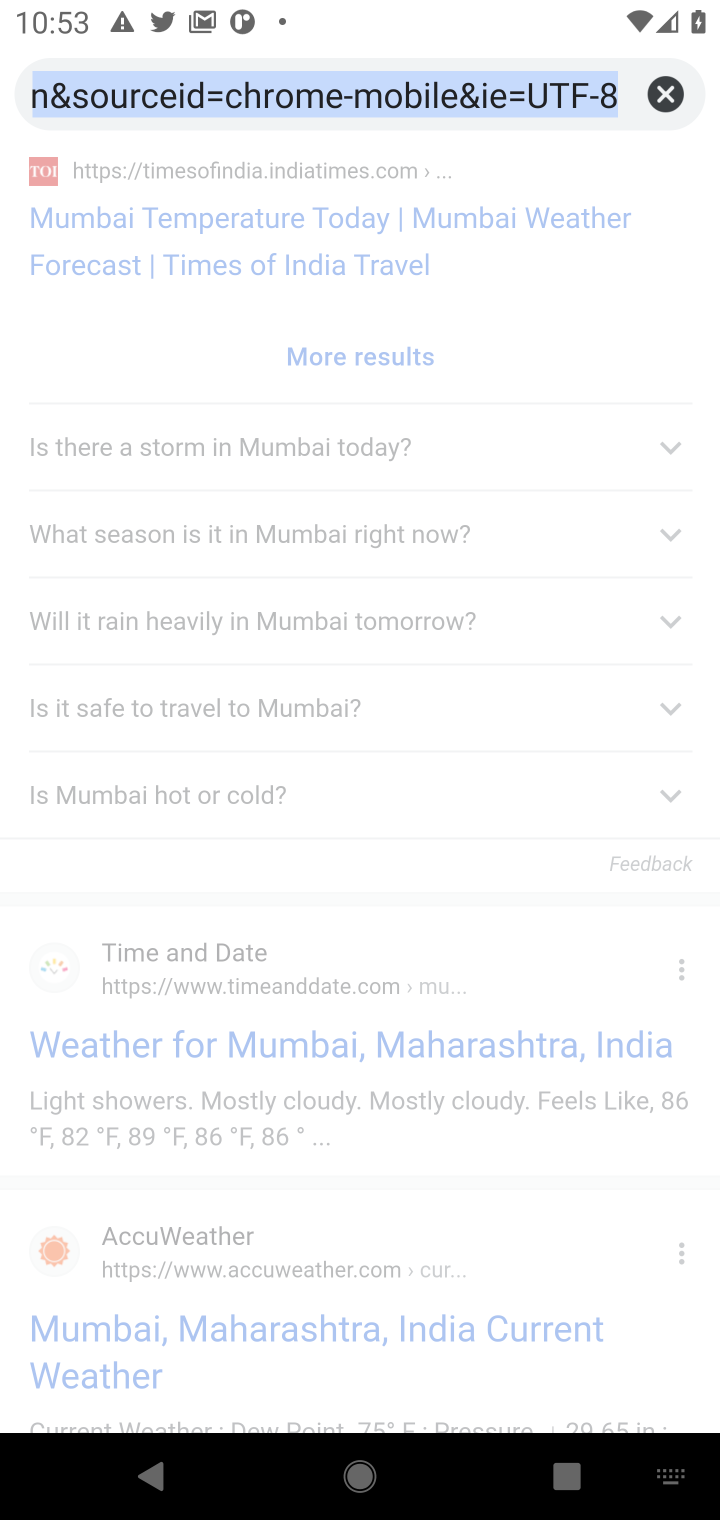
Step 30: click (657, 97)
Your task to perform on an android device: What's the weather like in Tokyo? Image 31: 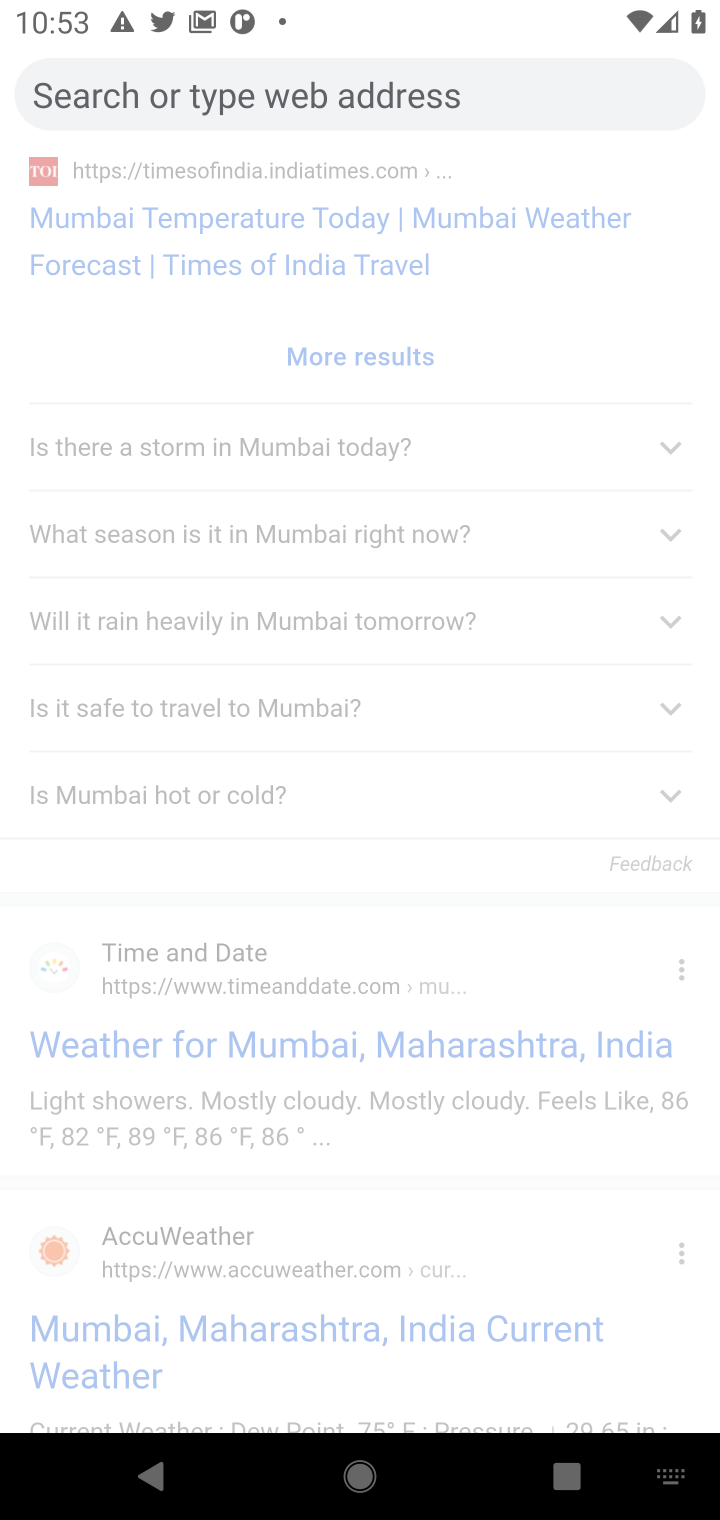
Step 31: type "whats the weather in tokyo"
Your task to perform on an android device: What's the weather like in Tokyo? Image 32: 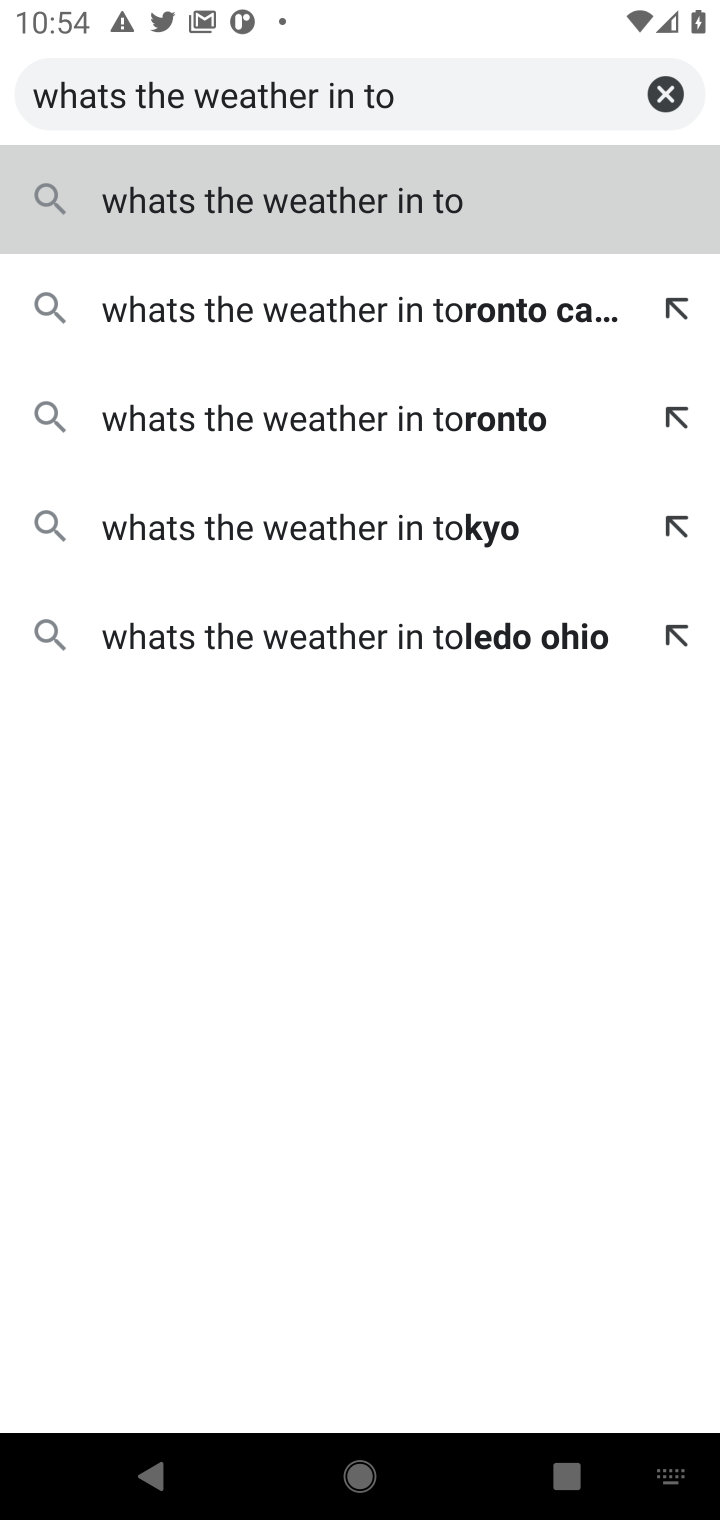
Step 32: click (98, 94)
Your task to perform on an android device: What's the weather like in Tokyo? Image 33: 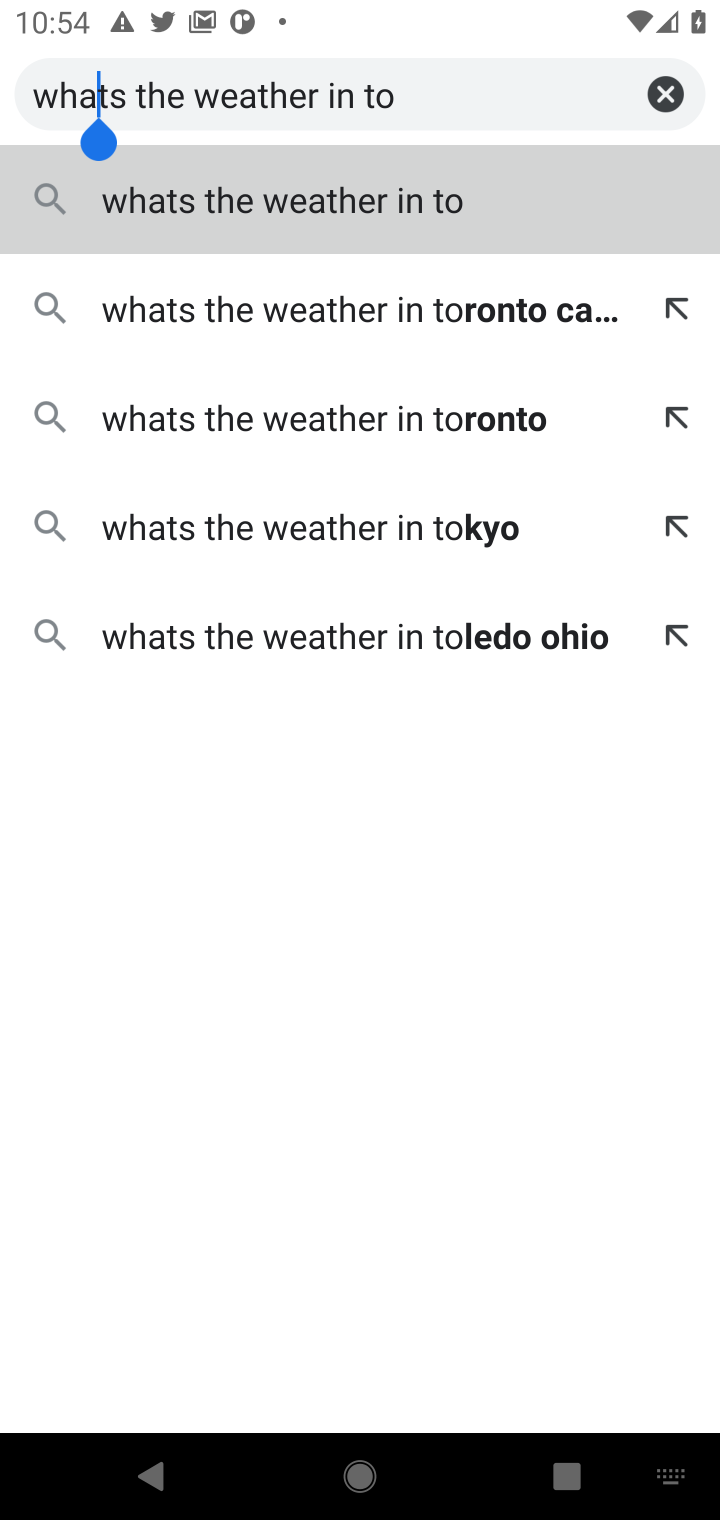
Step 33: click (313, 520)
Your task to perform on an android device: What's the weather like in Tokyo? Image 34: 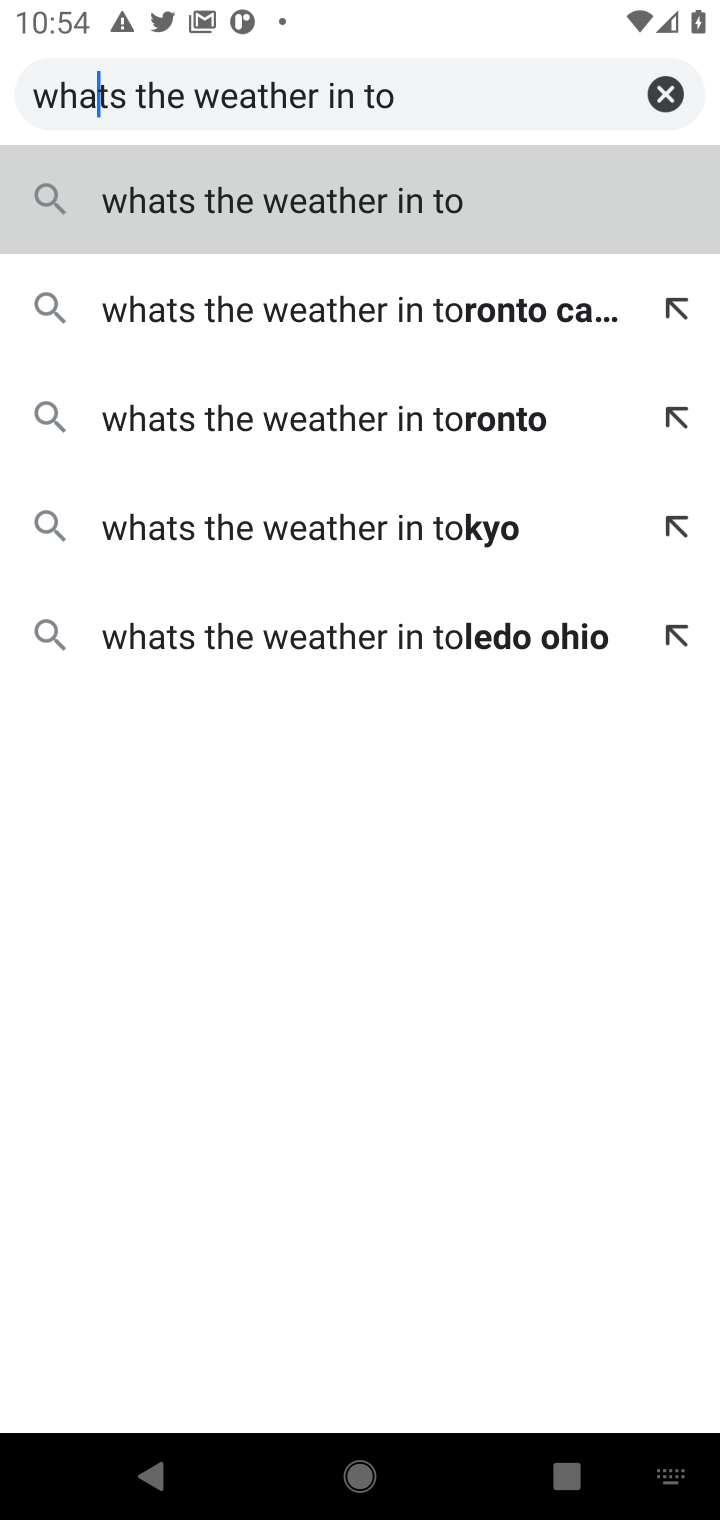
Step 34: click (351, 414)
Your task to perform on an android device: What's the weather like in Tokyo? Image 35: 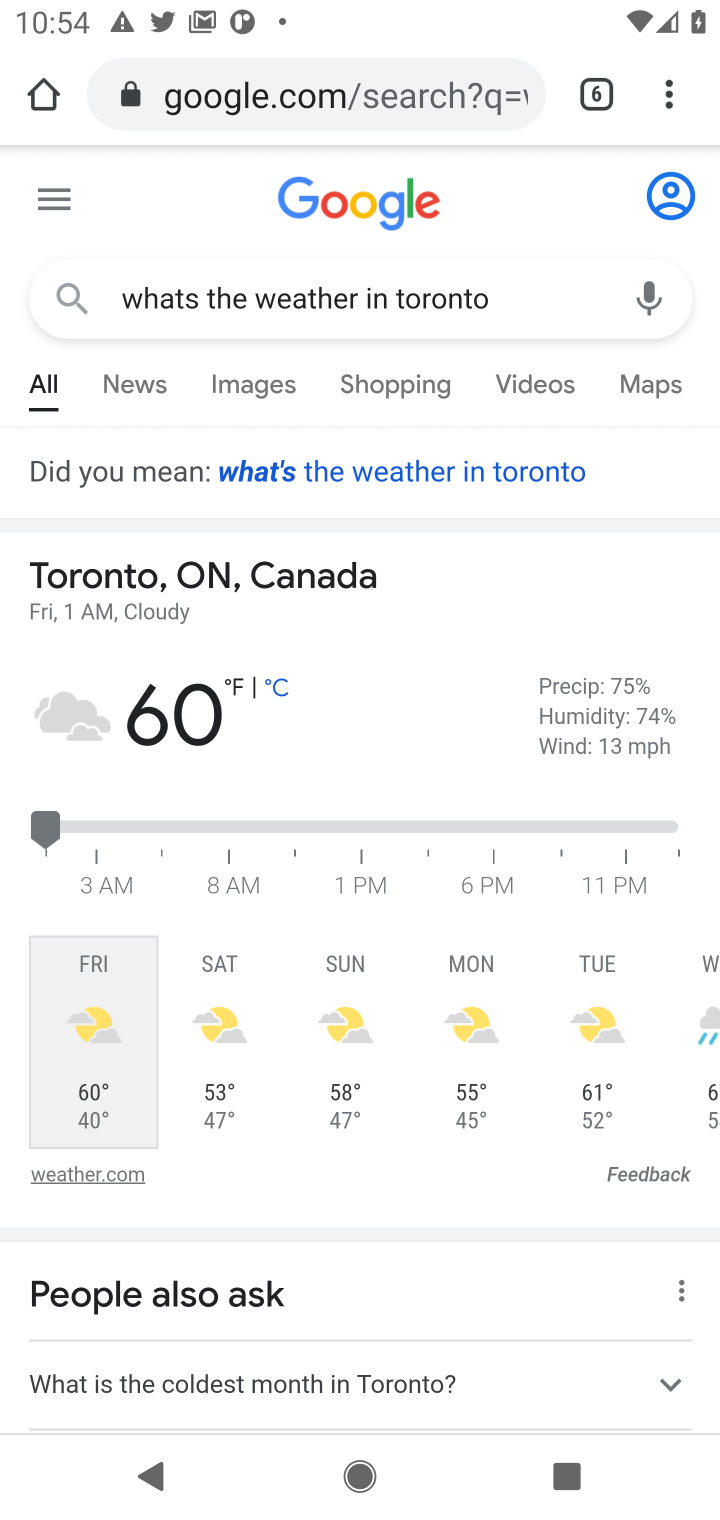
Step 35: task complete